Your task to perform on an android device: open app "Instagram" Image 0: 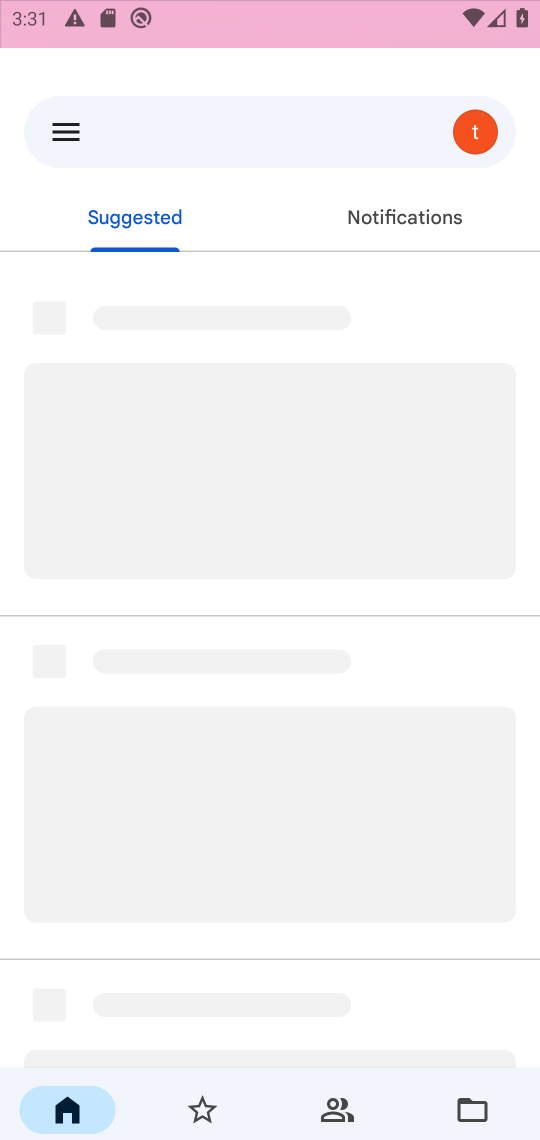
Step 0: drag from (229, 279) to (130, 434)
Your task to perform on an android device: open app "Instagram" Image 1: 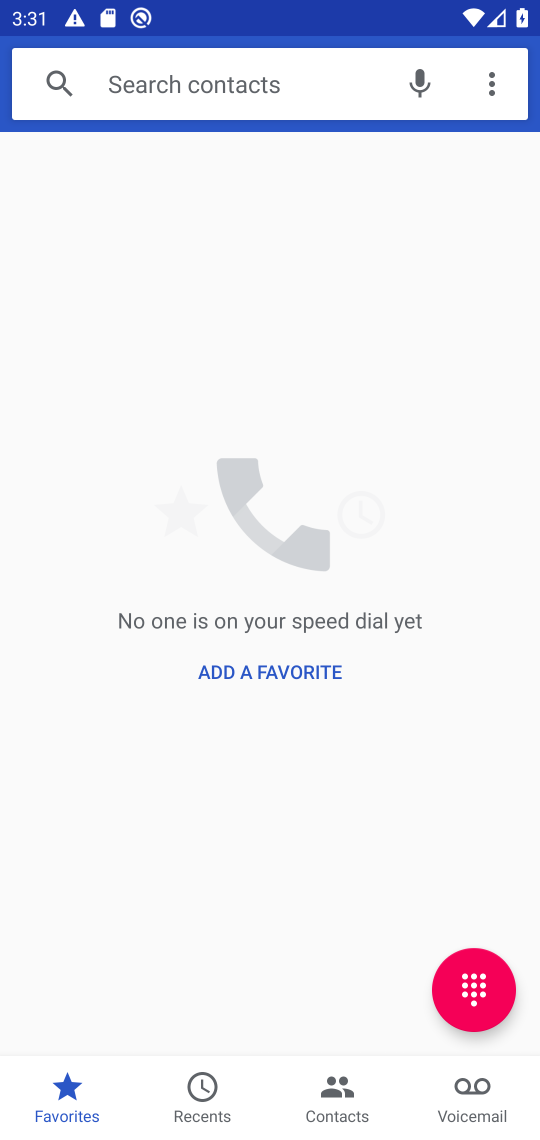
Step 1: drag from (120, 996) to (137, 609)
Your task to perform on an android device: open app "Instagram" Image 2: 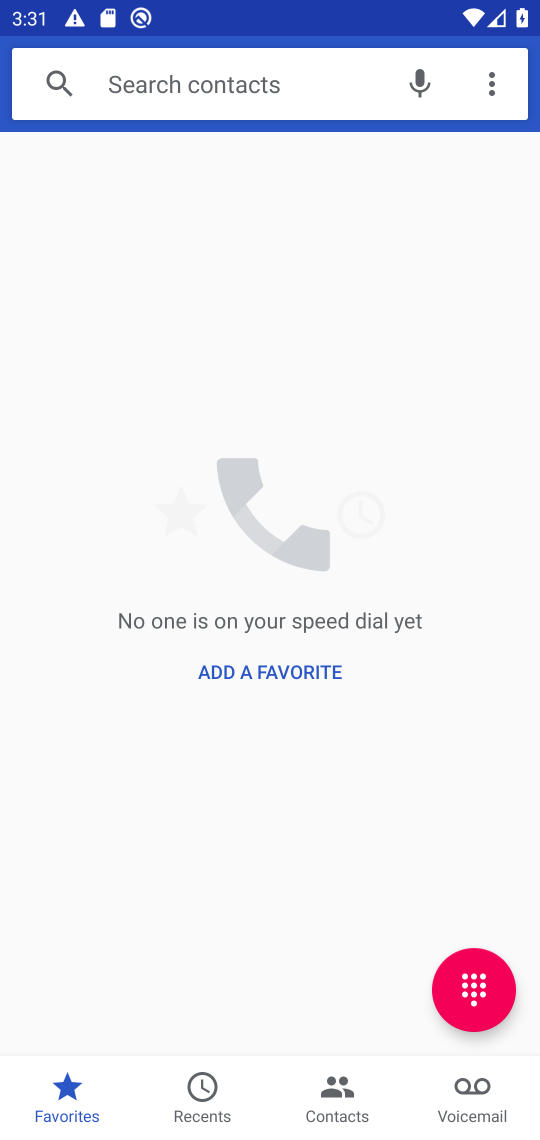
Step 2: press back button
Your task to perform on an android device: open app "Instagram" Image 3: 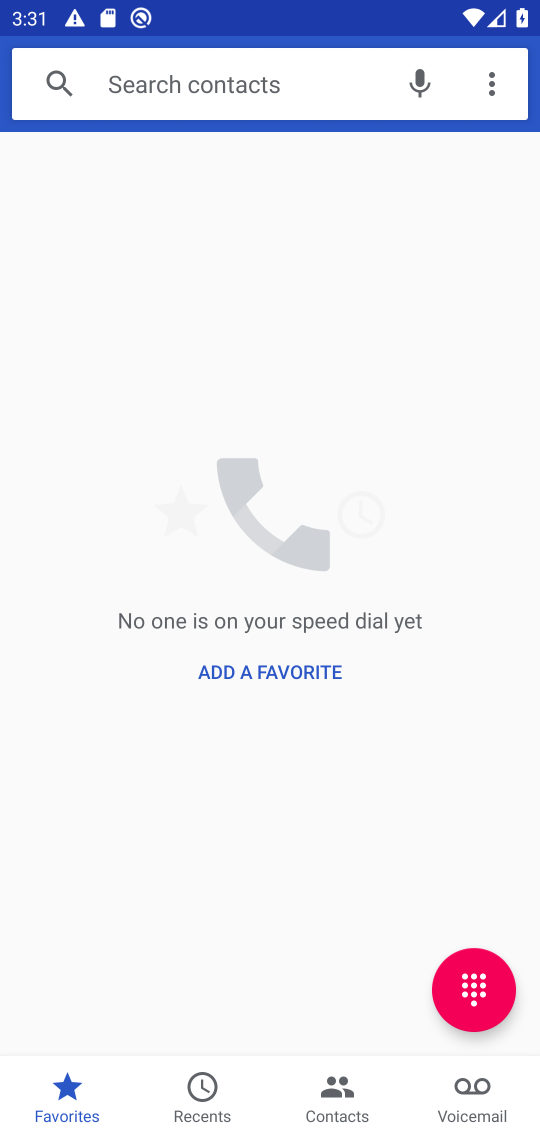
Step 3: press back button
Your task to perform on an android device: open app "Instagram" Image 4: 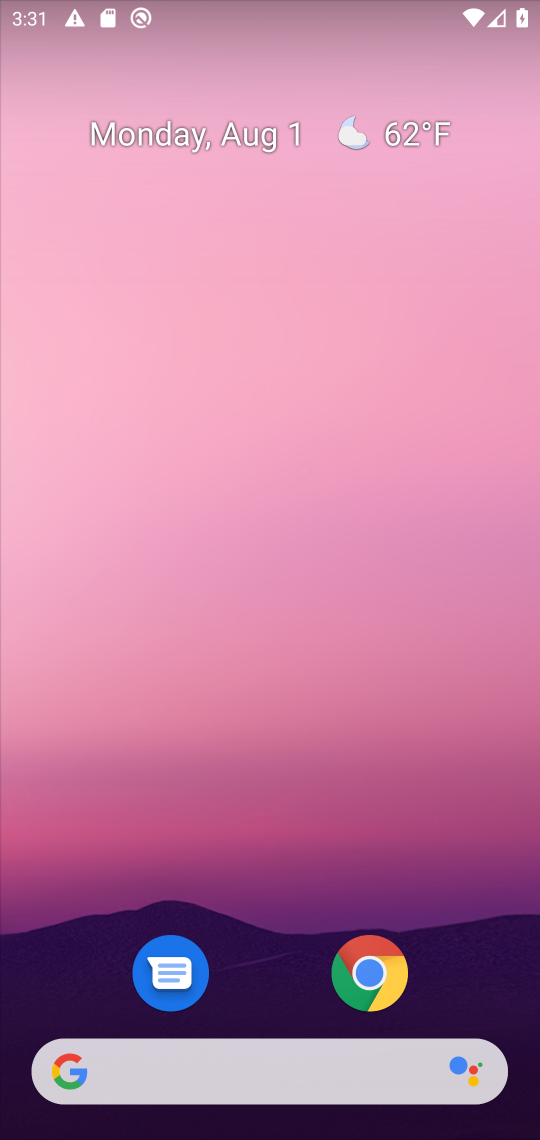
Step 4: press back button
Your task to perform on an android device: open app "Instagram" Image 5: 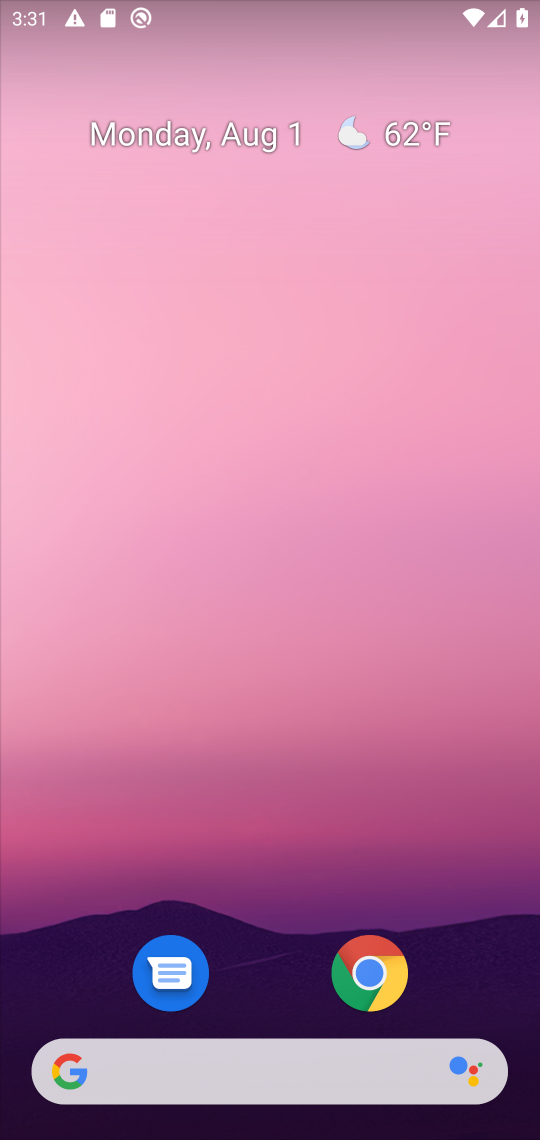
Step 5: drag from (167, 445) to (146, 305)
Your task to perform on an android device: open app "Instagram" Image 6: 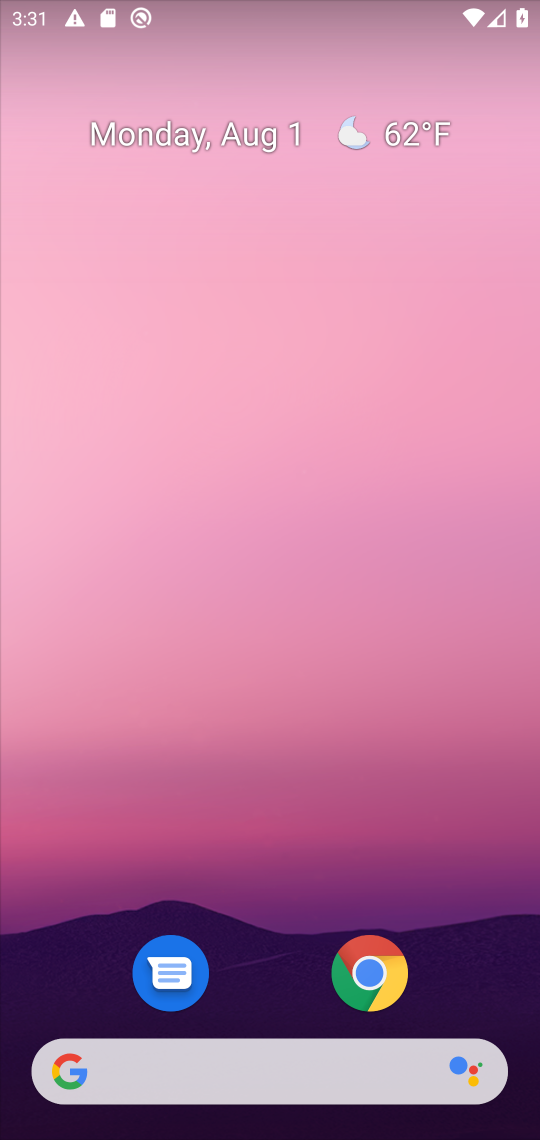
Step 6: drag from (223, 790) to (212, 172)
Your task to perform on an android device: open app "Instagram" Image 7: 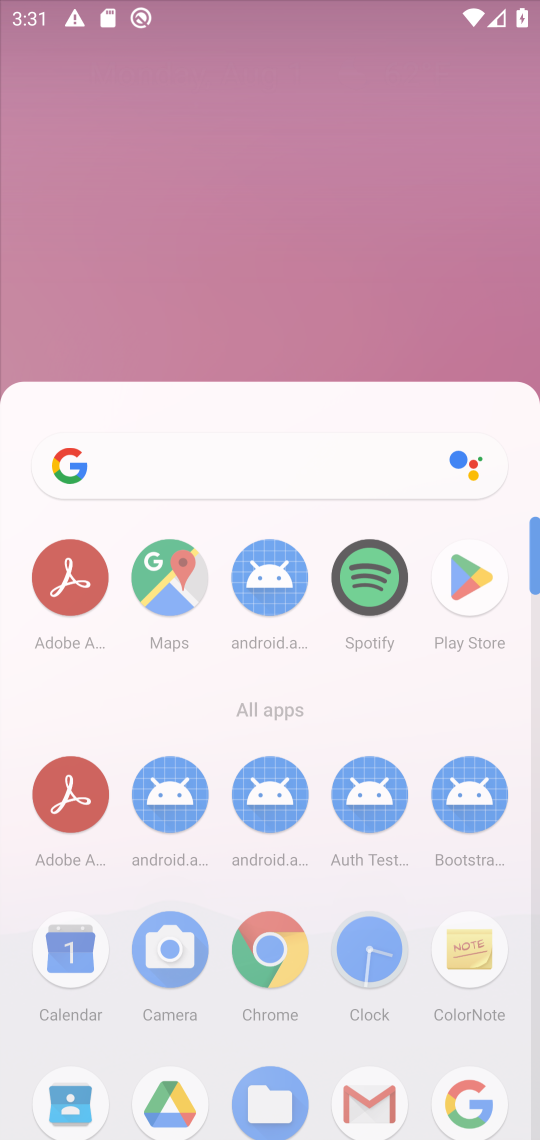
Step 7: drag from (180, 269) to (225, 153)
Your task to perform on an android device: open app "Instagram" Image 8: 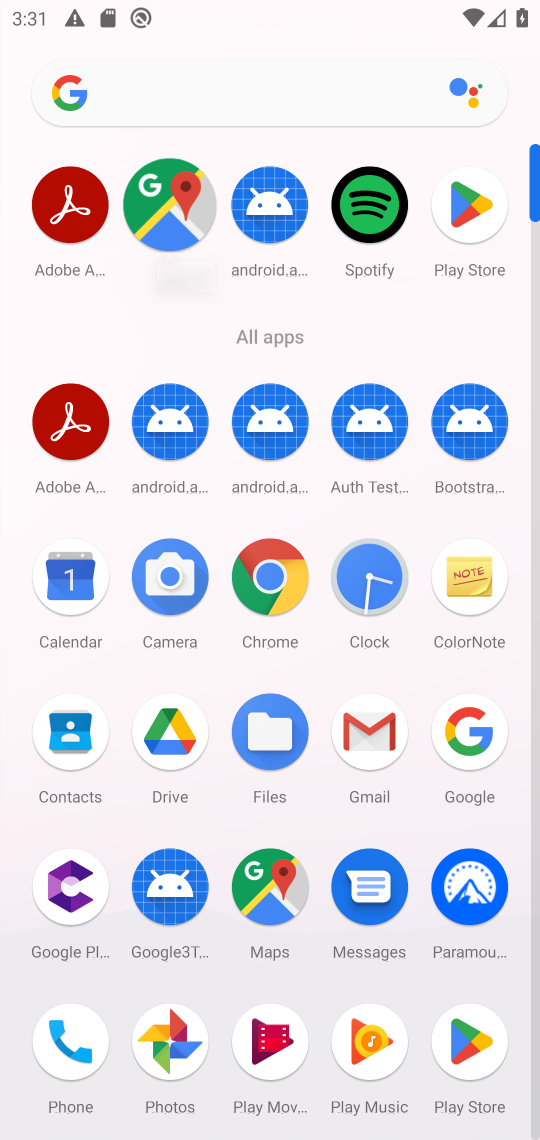
Step 8: drag from (219, 538) to (242, 151)
Your task to perform on an android device: open app "Instagram" Image 9: 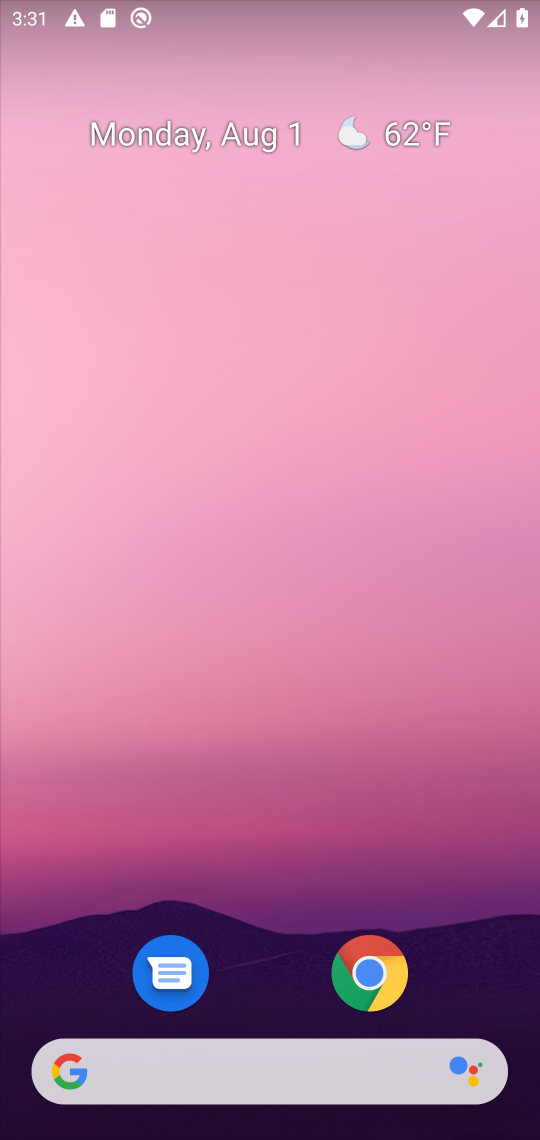
Step 9: drag from (242, 714) to (207, 323)
Your task to perform on an android device: open app "Instagram" Image 10: 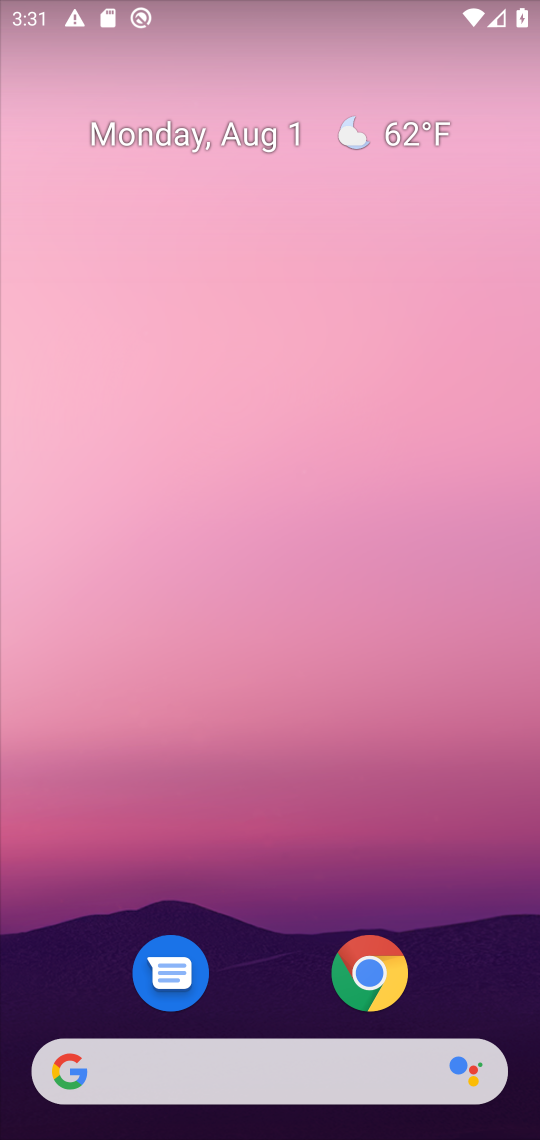
Step 10: drag from (434, 923) to (302, 235)
Your task to perform on an android device: open app "Instagram" Image 11: 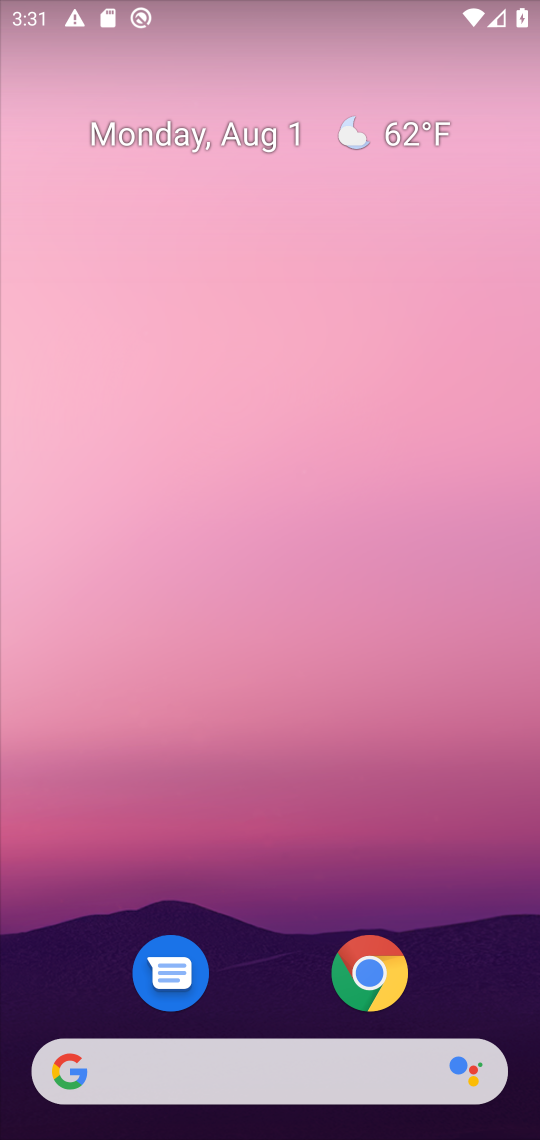
Step 11: drag from (279, 700) to (292, 189)
Your task to perform on an android device: open app "Instagram" Image 12: 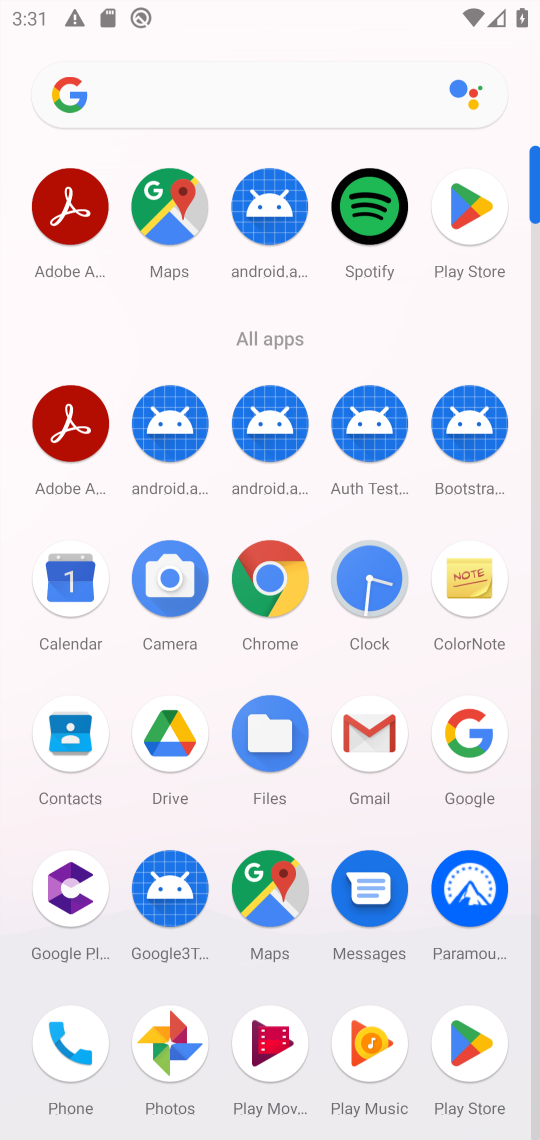
Step 12: click (316, 439)
Your task to perform on an android device: open app "Instagram" Image 13: 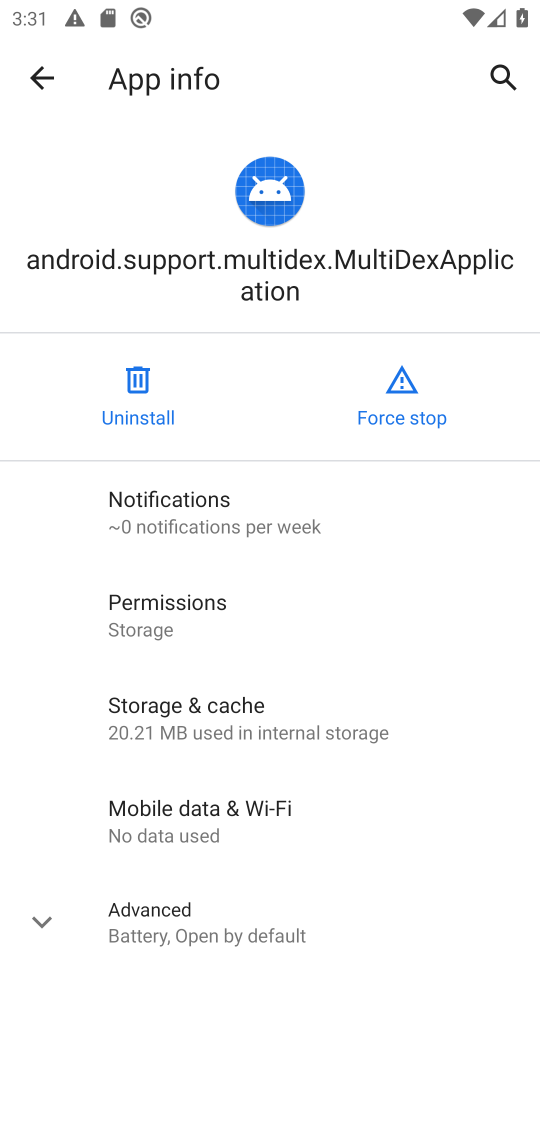
Step 13: click (39, 72)
Your task to perform on an android device: open app "Instagram" Image 14: 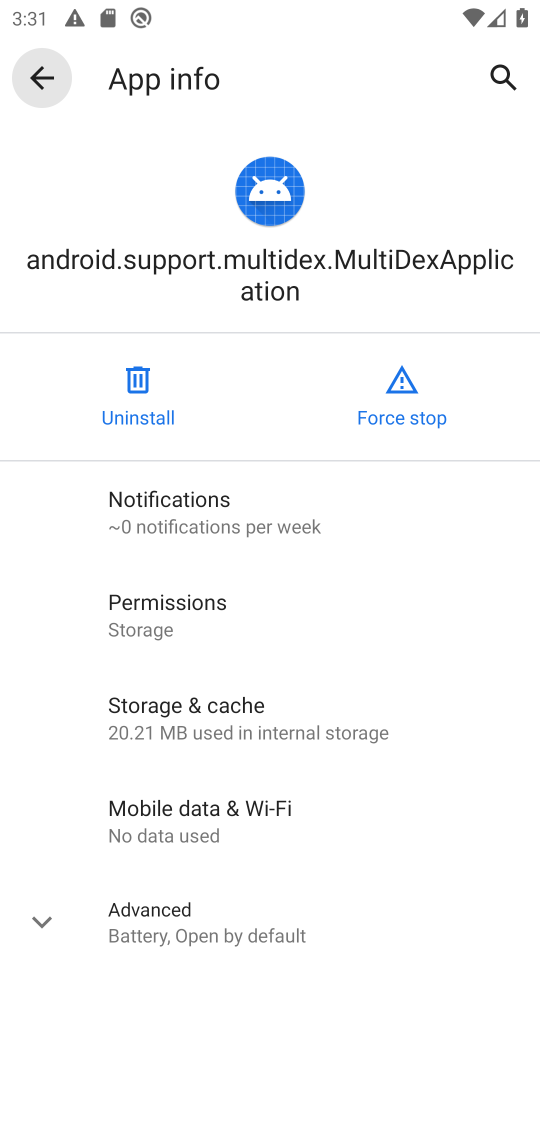
Step 14: click (39, 72)
Your task to perform on an android device: open app "Instagram" Image 15: 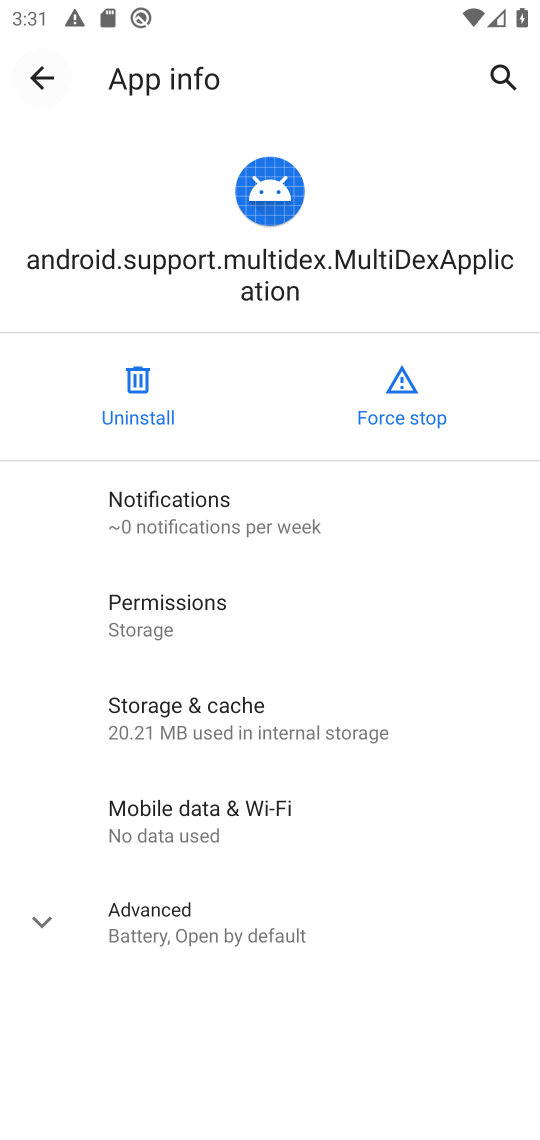
Step 15: click (43, 74)
Your task to perform on an android device: open app "Instagram" Image 16: 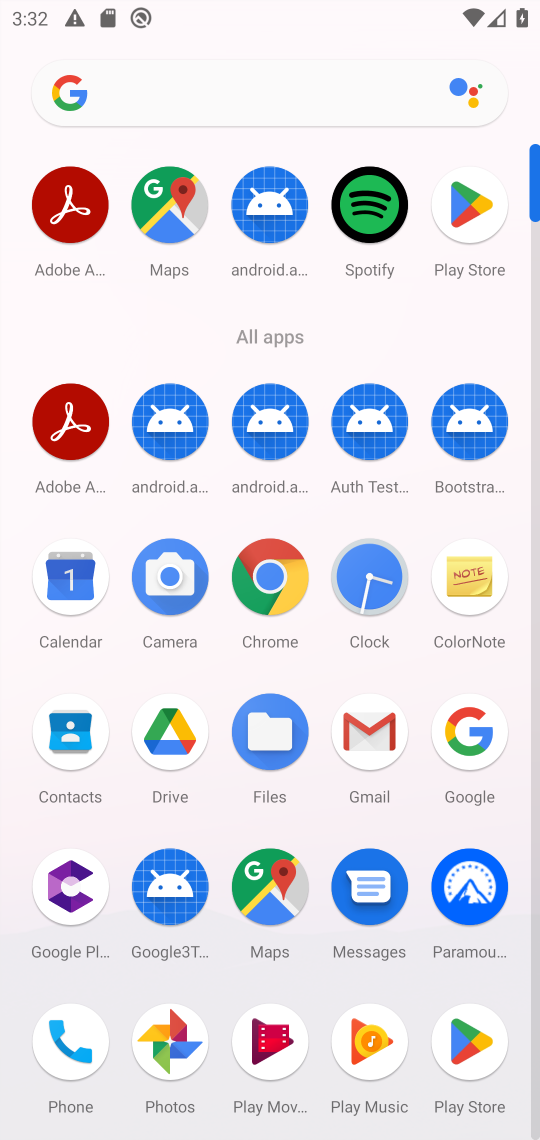
Step 16: drag from (341, 882) to (210, 225)
Your task to perform on an android device: open app "Instagram" Image 17: 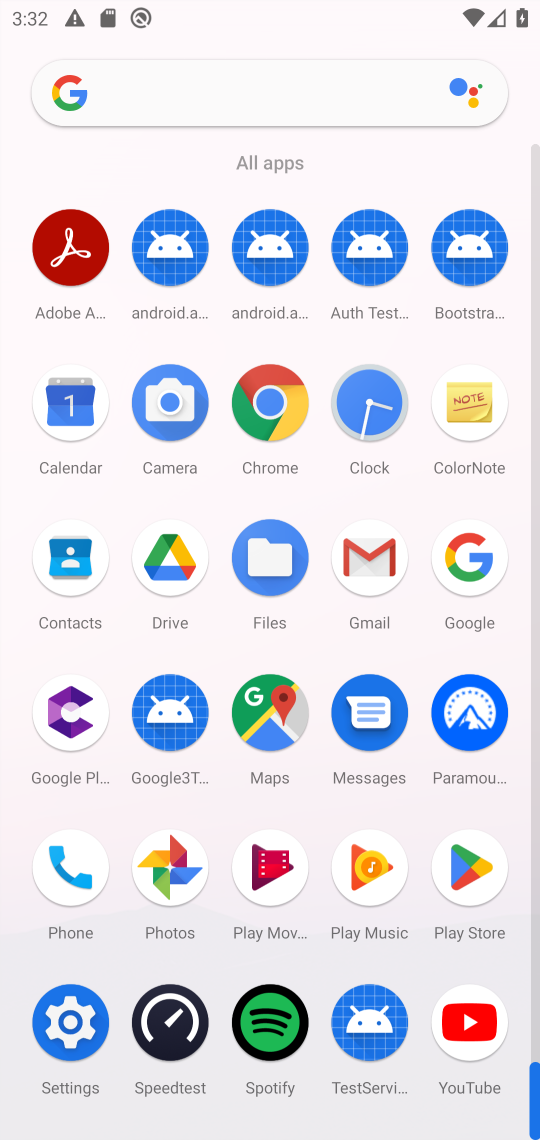
Step 17: drag from (268, 590) to (193, 251)
Your task to perform on an android device: open app "Instagram" Image 18: 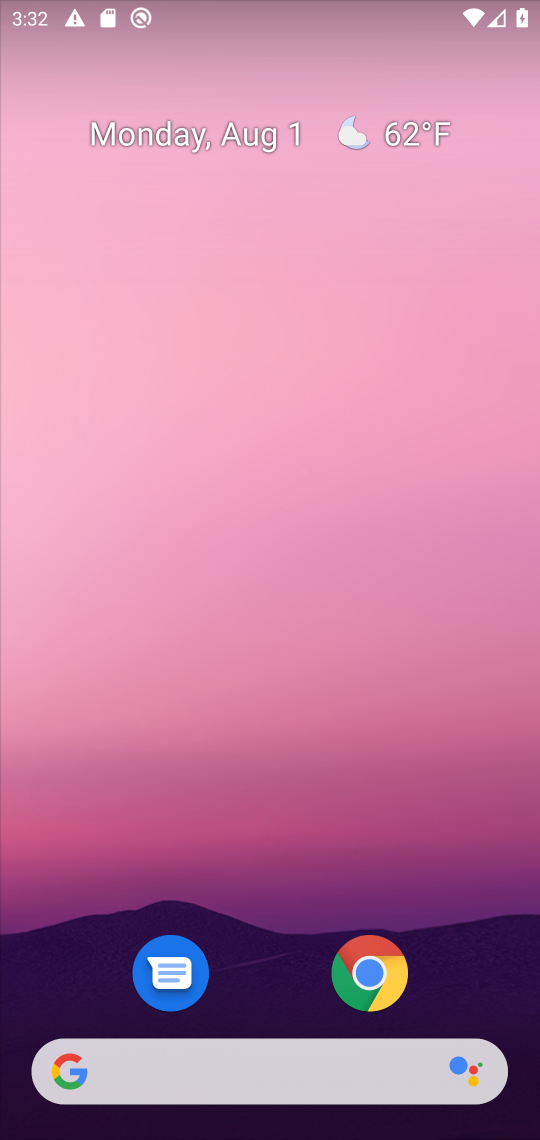
Step 18: drag from (266, 931) to (312, 352)
Your task to perform on an android device: open app "Instagram" Image 19: 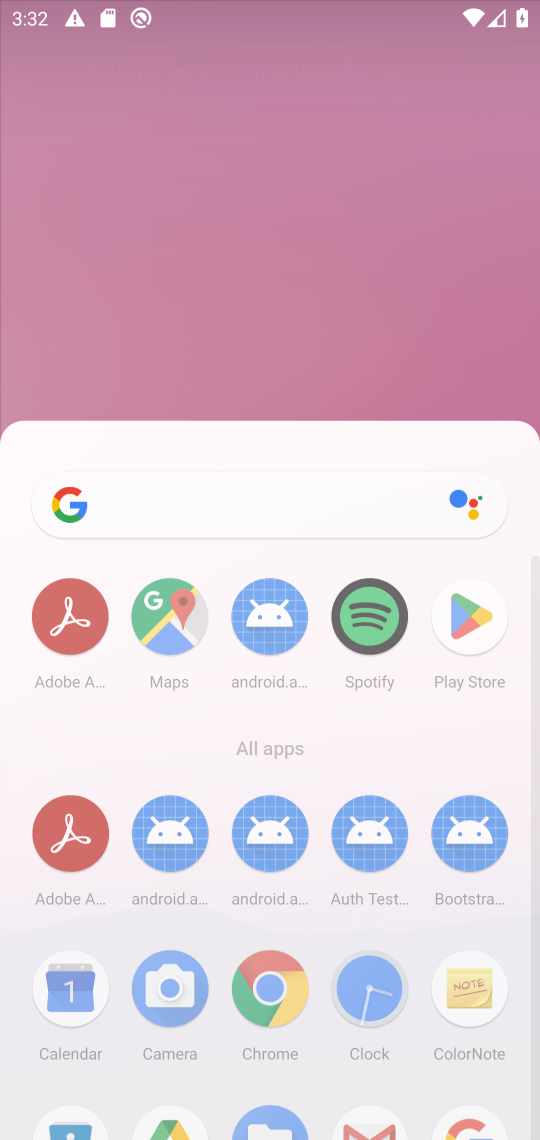
Step 19: drag from (326, 760) to (267, 311)
Your task to perform on an android device: open app "Instagram" Image 20: 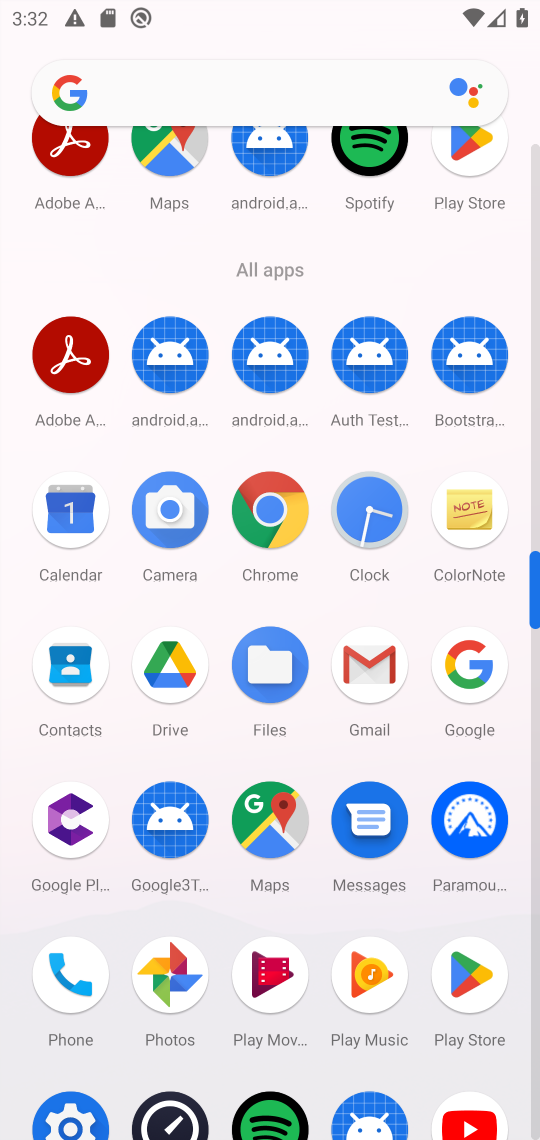
Step 20: click (462, 155)
Your task to perform on an android device: open app "Instagram" Image 21: 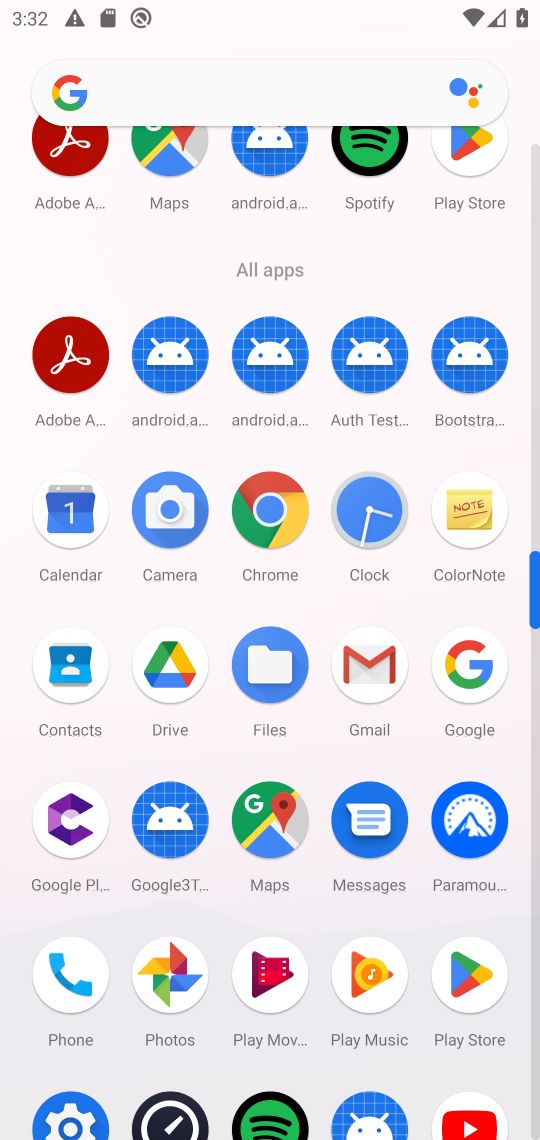
Step 21: click (462, 155)
Your task to perform on an android device: open app "Instagram" Image 22: 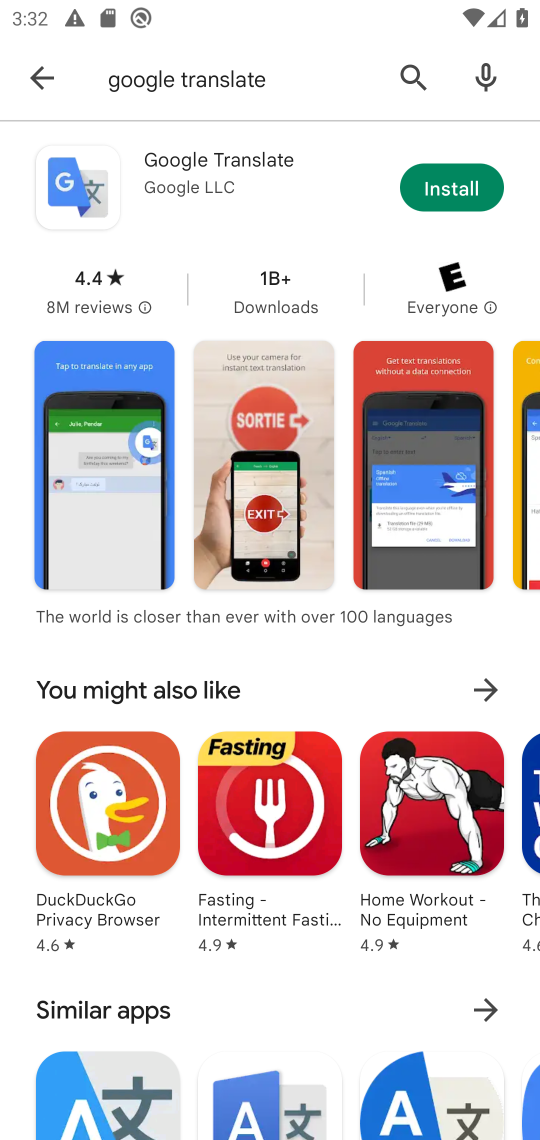
Step 22: click (450, 177)
Your task to perform on an android device: open app "Instagram" Image 23: 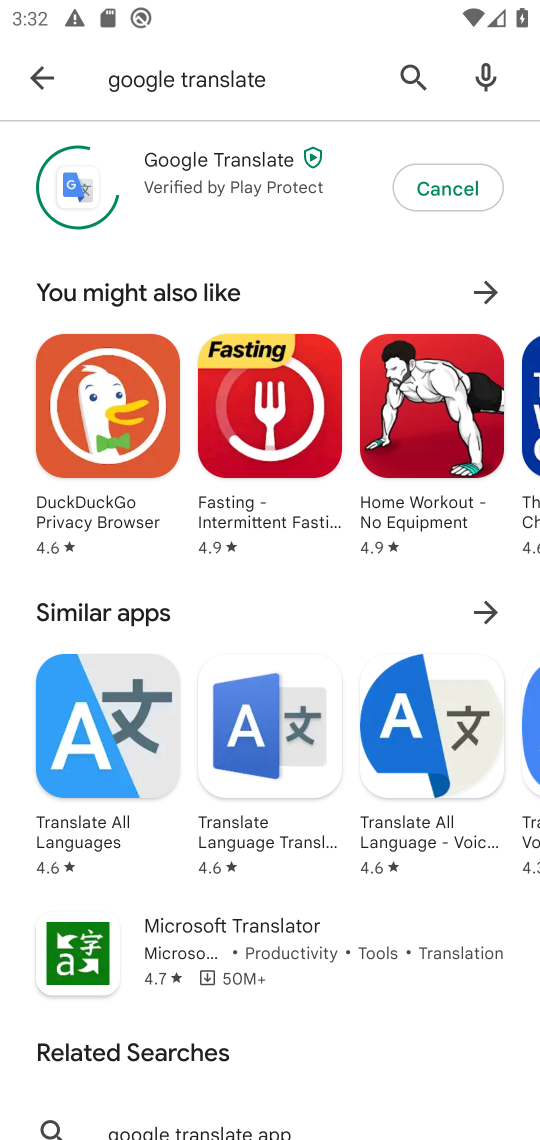
Step 23: click (17, 56)
Your task to perform on an android device: open app "Instagram" Image 24: 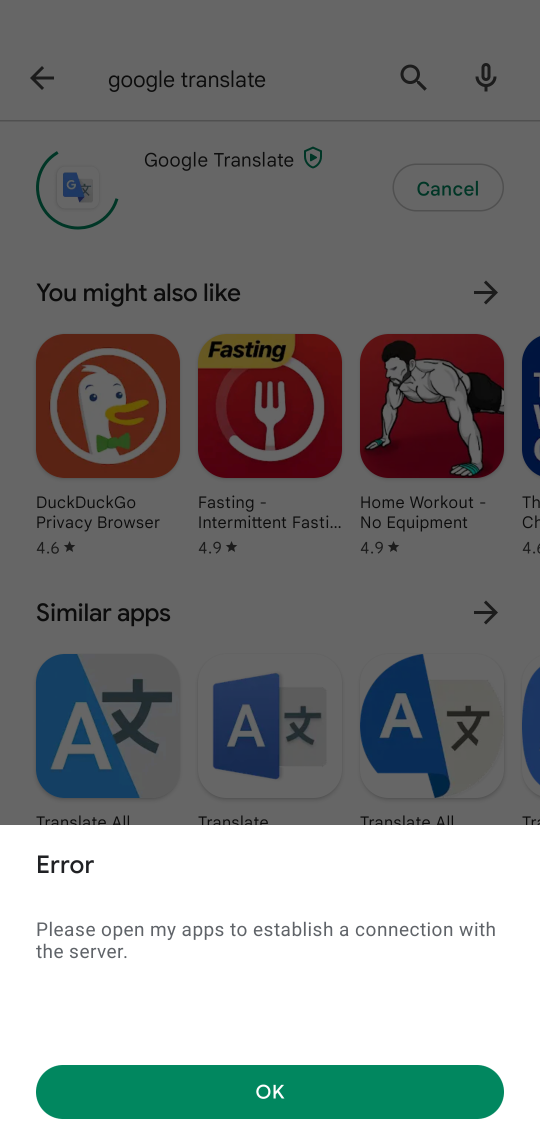
Step 24: click (421, 174)
Your task to perform on an android device: open app "Instagram" Image 25: 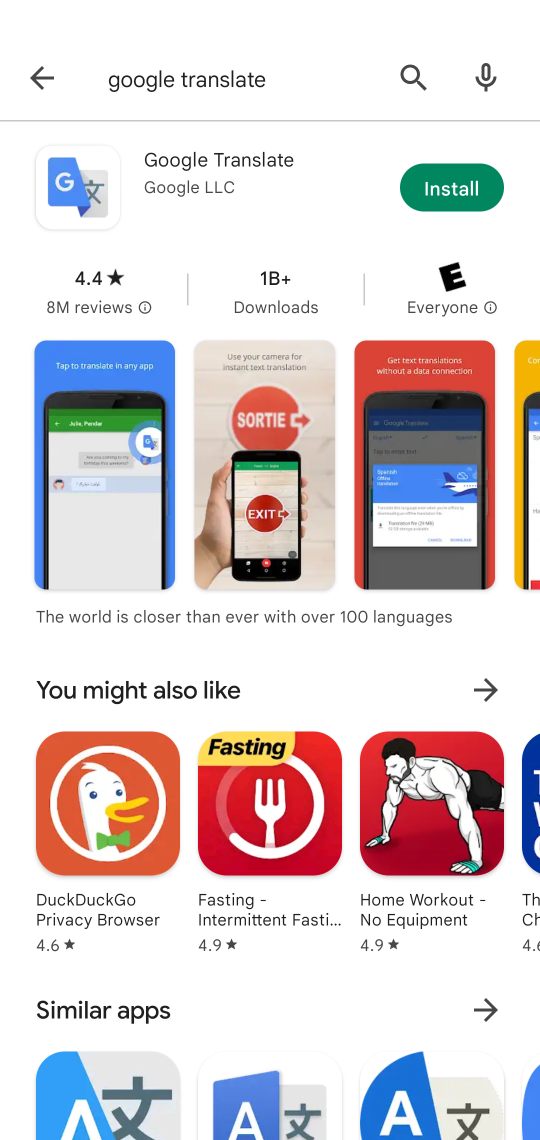
Step 25: click (340, 1101)
Your task to perform on an android device: open app "Instagram" Image 26: 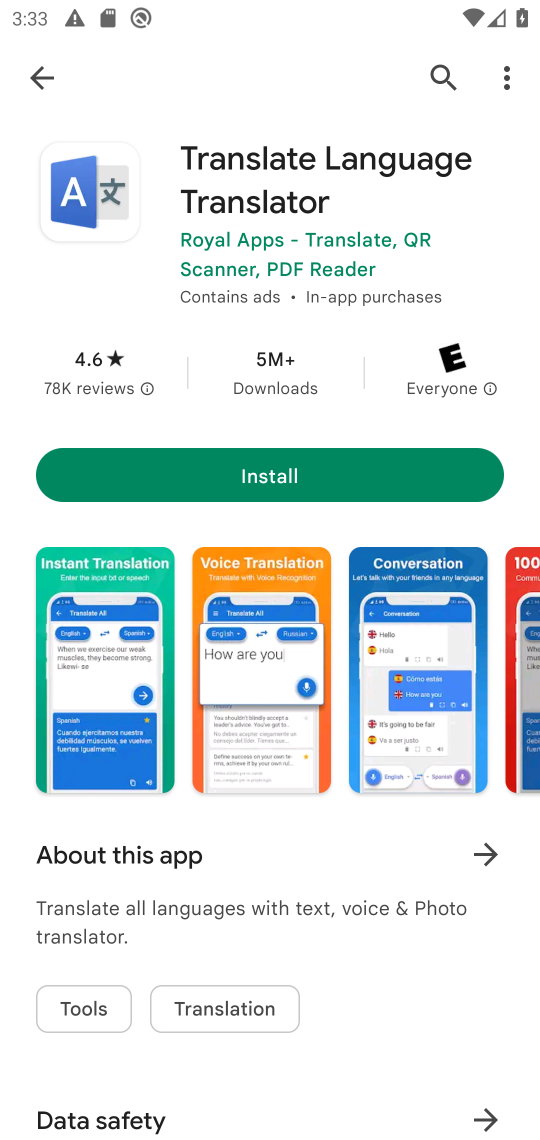
Step 26: click (30, 68)
Your task to perform on an android device: open app "Instagram" Image 27: 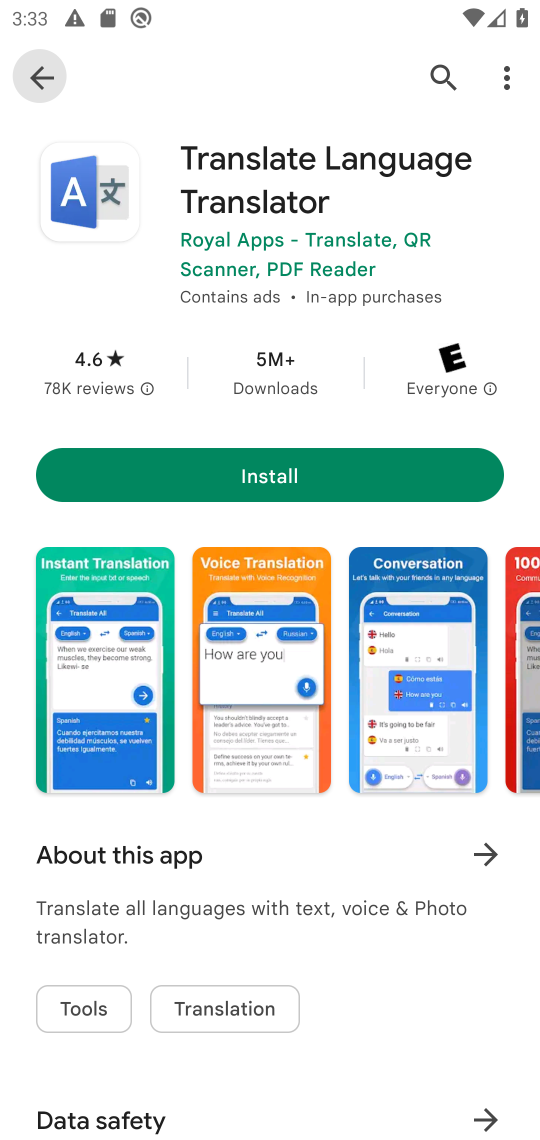
Step 27: click (32, 65)
Your task to perform on an android device: open app "Instagram" Image 28: 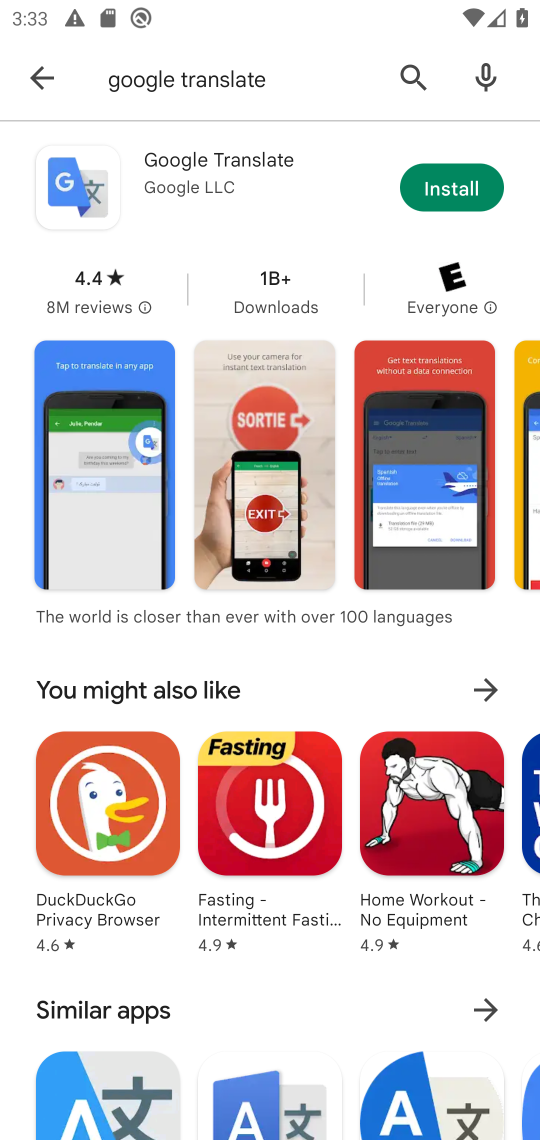
Step 28: click (79, 102)
Your task to perform on an android device: open app "Instagram" Image 29: 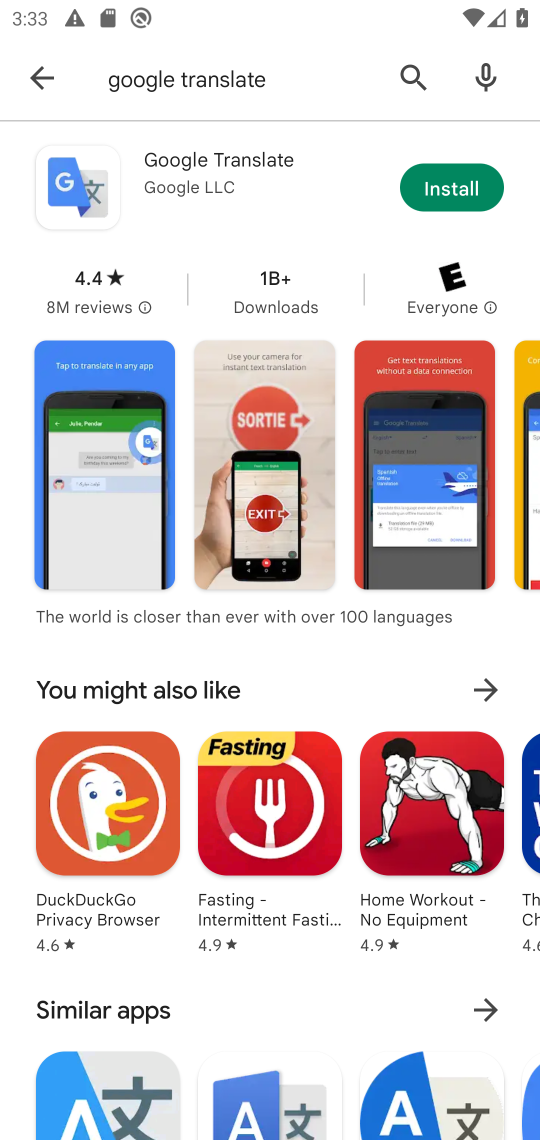
Step 29: click (42, 74)
Your task to perform on an android device: open app "Instagram" Image 30: 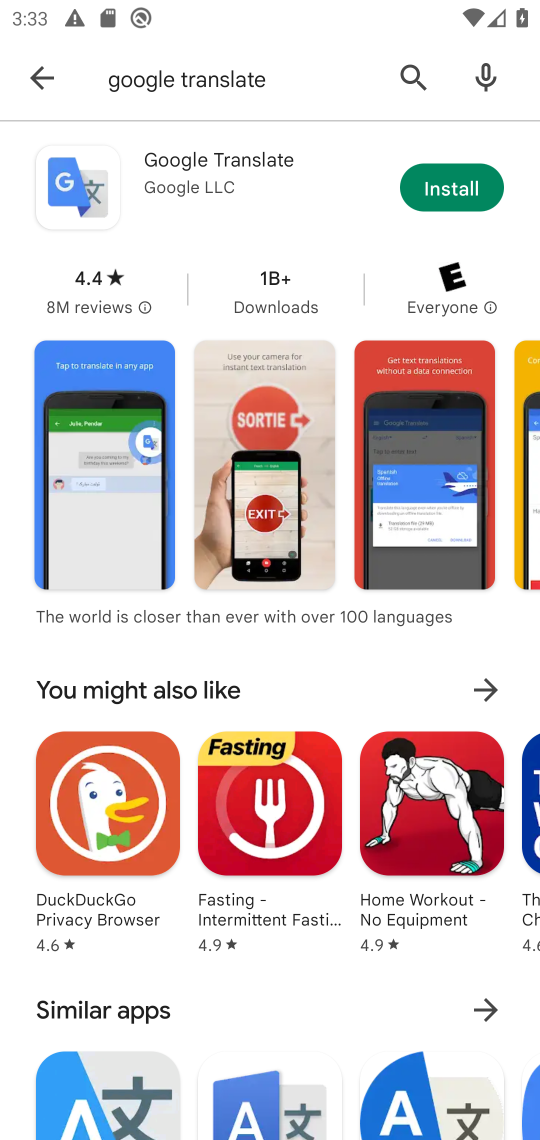
Step 30: click (42, 75)
Your task to perform on an android device: open app "Instagram" Image 31: 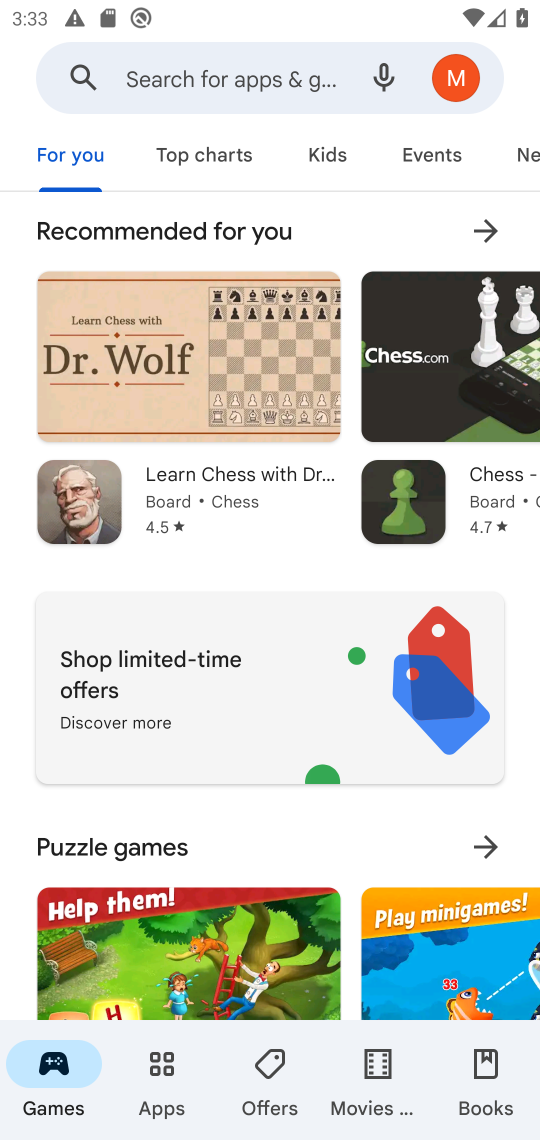
Step 31: click (181, 72)
Your task to perform on an android device: open app "Instagram" Image 32: 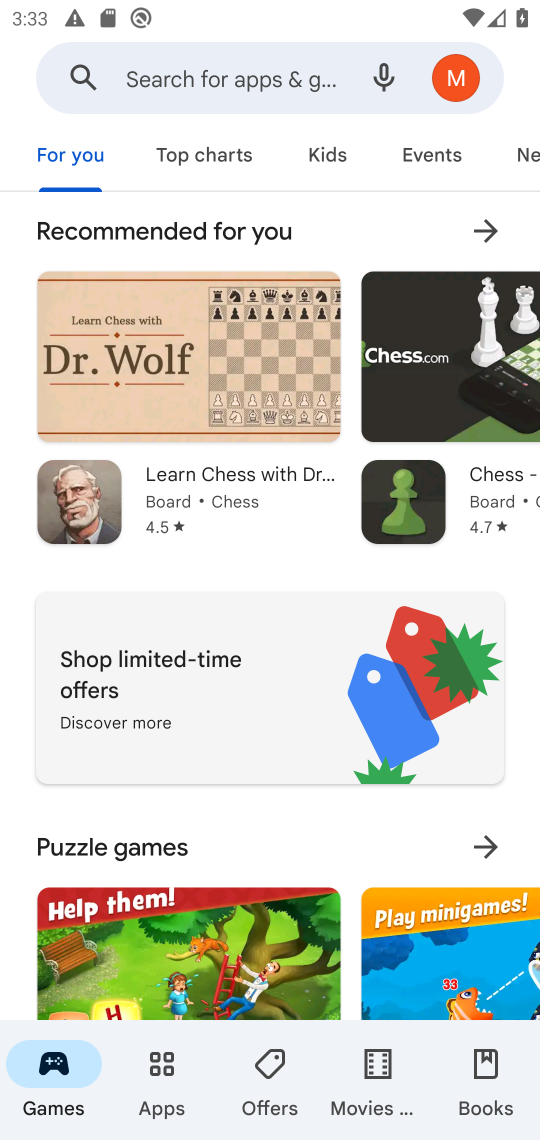
Step 32: click (179, 72)
Your task to perform on an android device: open app "Instagram" Image 33: 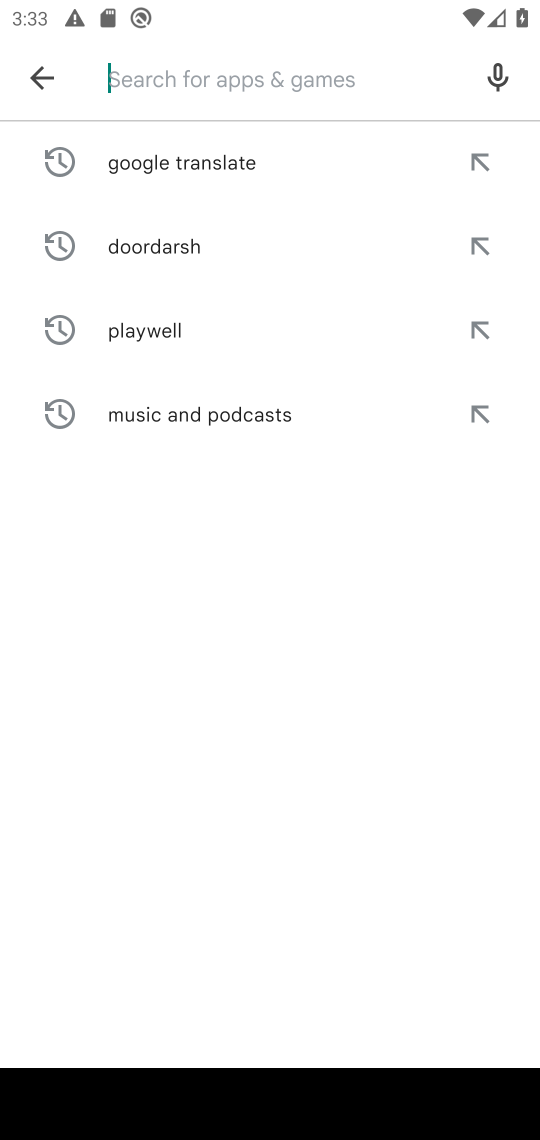
Step 33: type "instagram"
Your task to perform on an android device: open app "Instagram" Image 34: 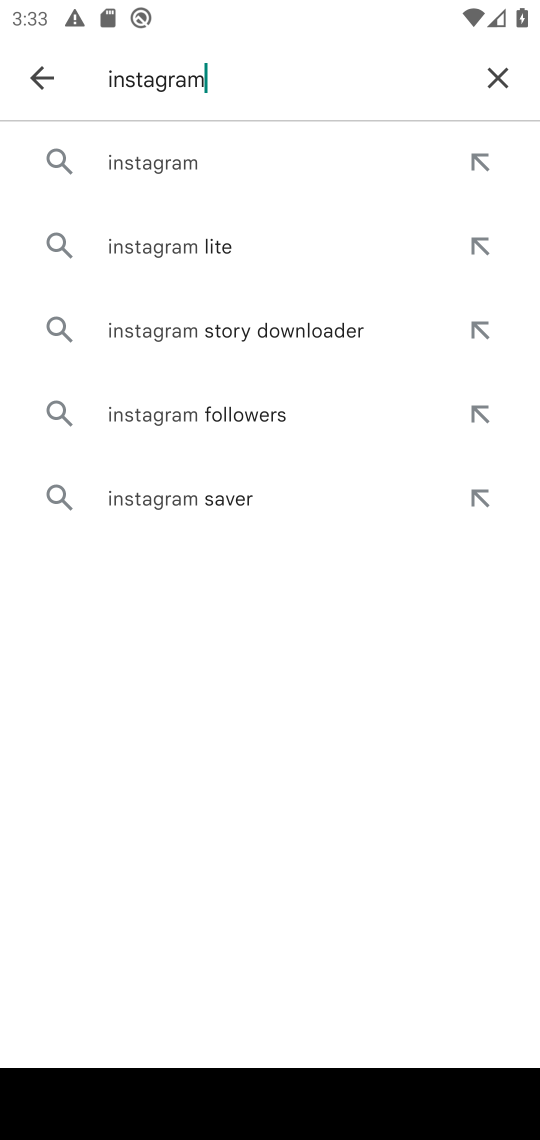
Step 34: click (154, 180)
Your task to perform on an android device: open app "Instagram" Image 35: 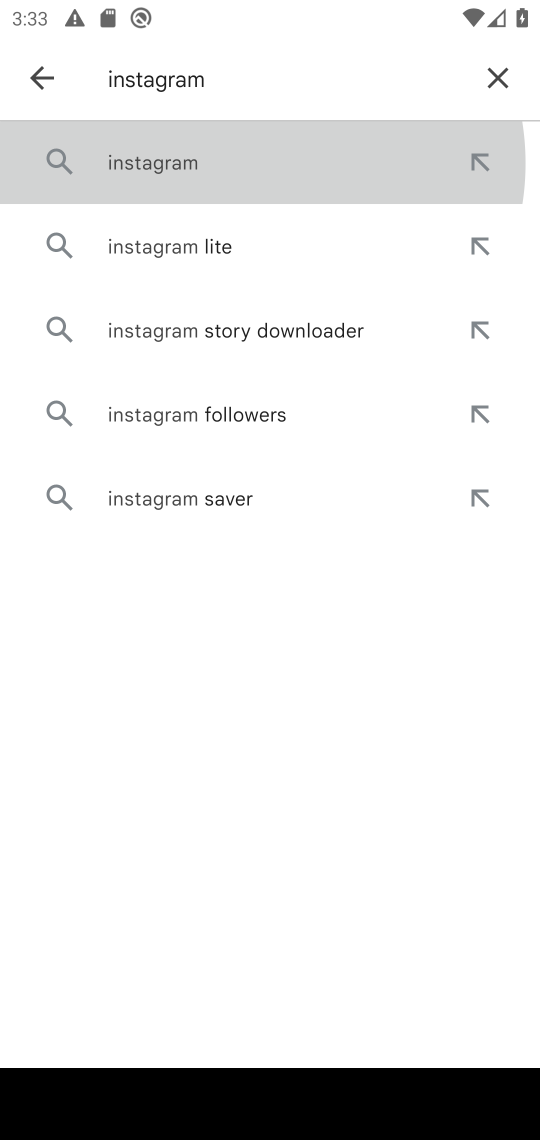
Step 35: click (156, 180)
Your task to perform on an android device: open app "Instagram" Image 36: 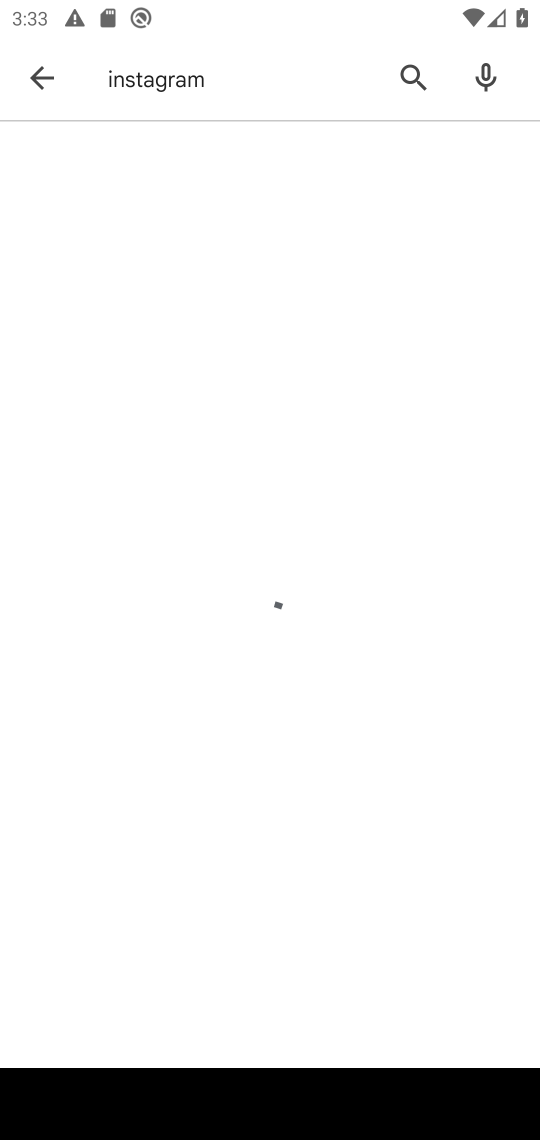
Step 36: click (156, 180)
Your task to perform on an android device: open app "Instagram" Image 37: 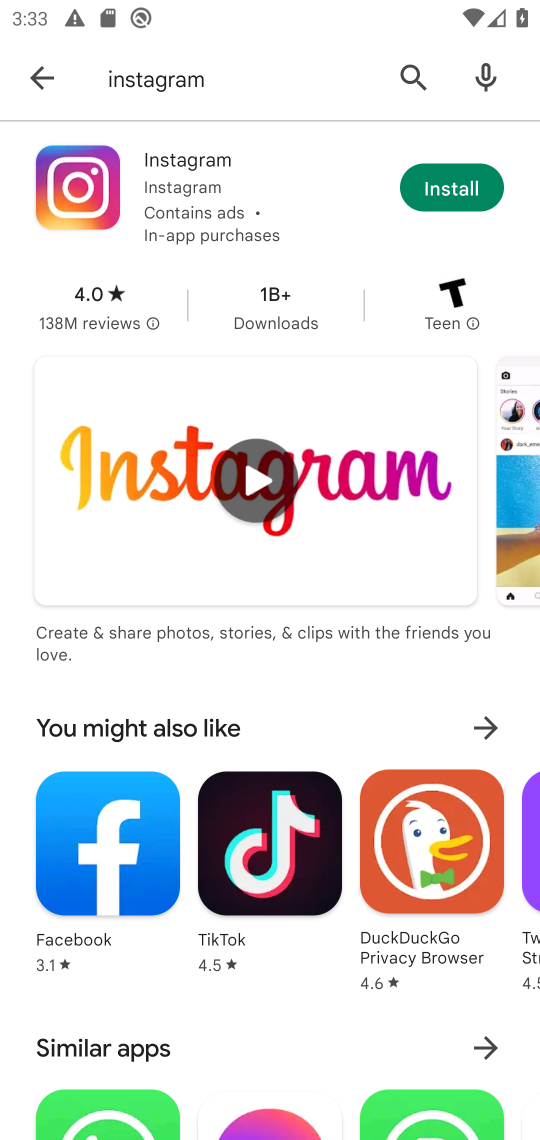
Step 37: click (454, 191)
Your task to perform on an android device: open app "Instagram" Image 38: 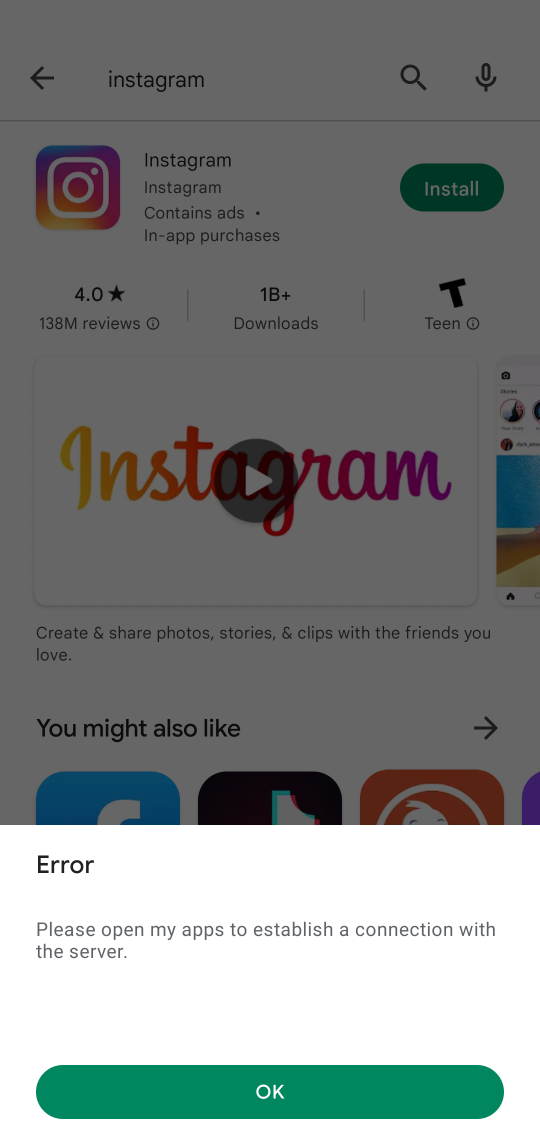
Step 38: click (263, 1088)
Your task to perform on an android device: open app "Instagram" Image 39: 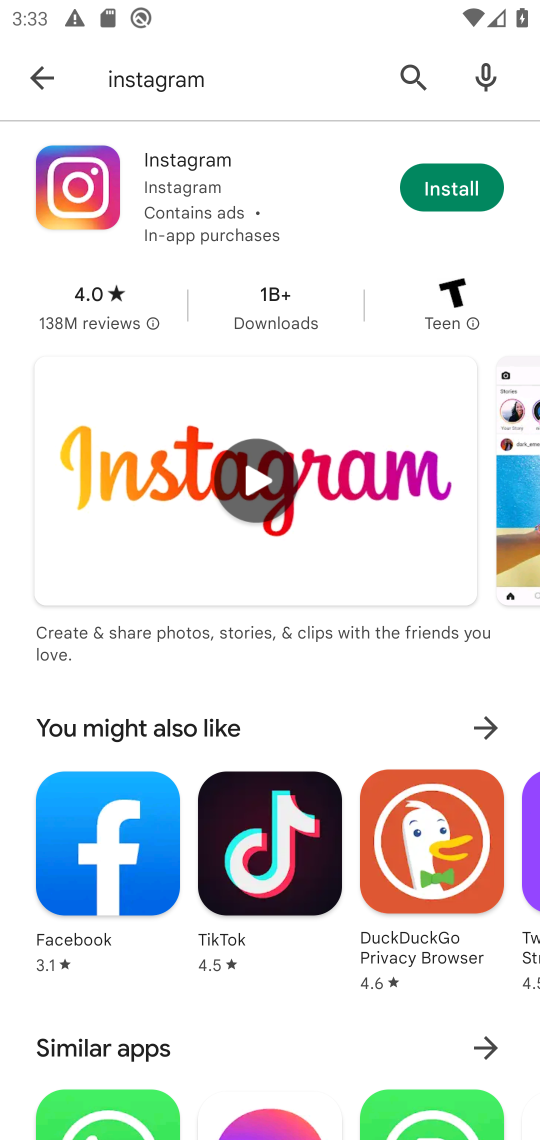
Step 39: click (279, 1068)
Your task to perform on an android device: open app "Instagram" Image 40: 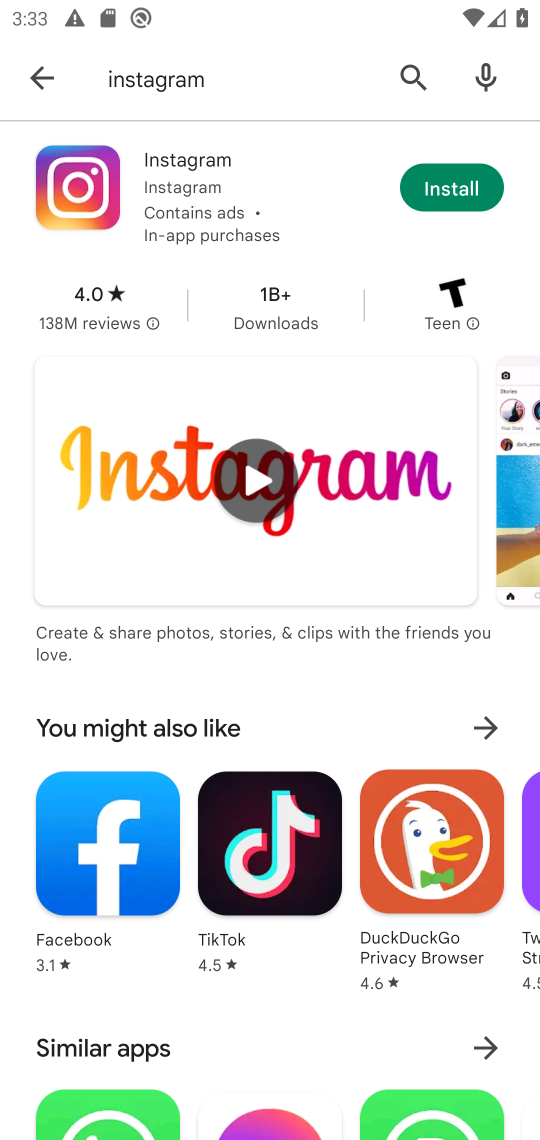
Step 40: click (279, 1068)
Your task to perform on an android device: open app "Instagram" Image 41: 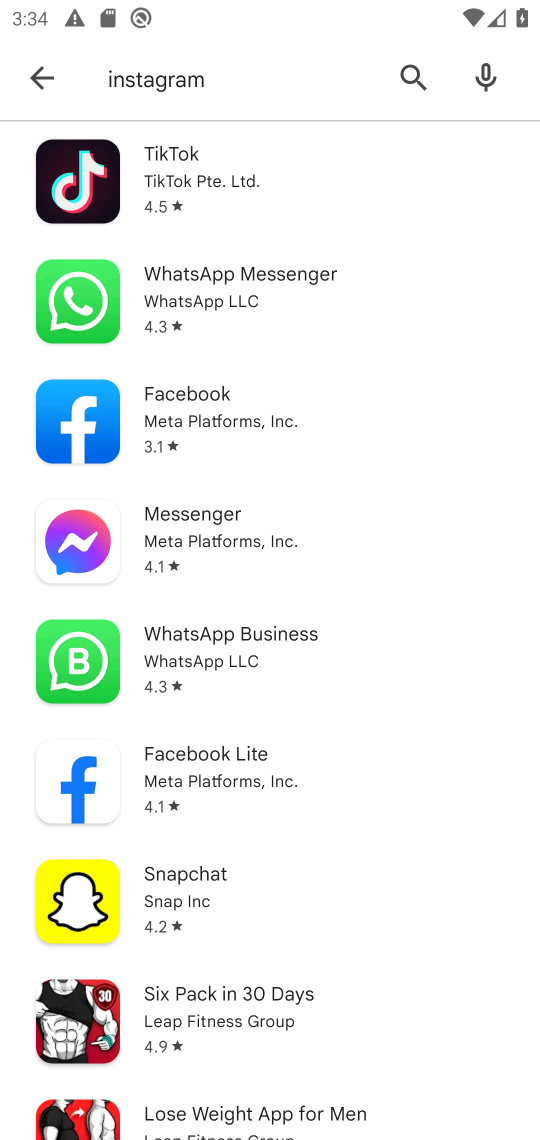
Step 41: drag from (203, 558) to (208, 1111)
Your task to perform on an android device: open app "Instagram" Image 42: 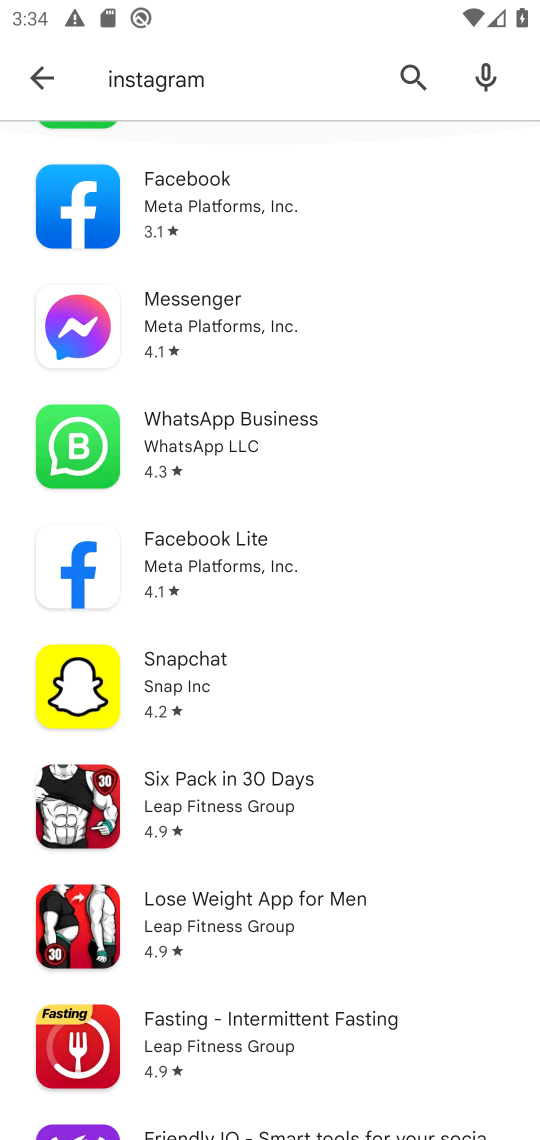
Step 42: drag from (174, 669) to (206, 961)
Your task to perform on an android device: open app "Instagram" Image 43: 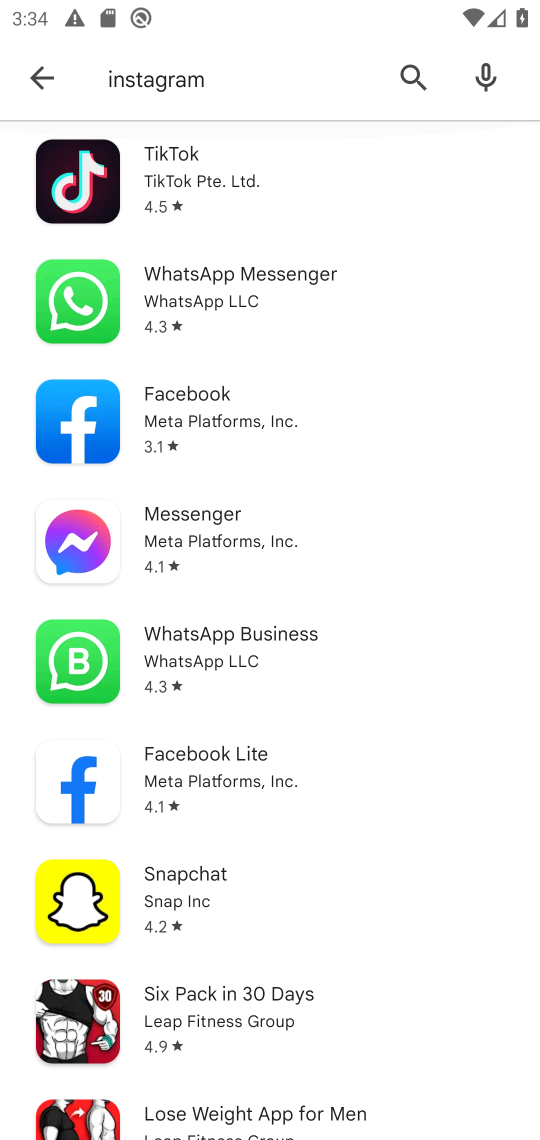
Step 43: drag from (180, 623) to (256, 1006)
Your task to perform on an android device: open app "Instagram" Image 44: 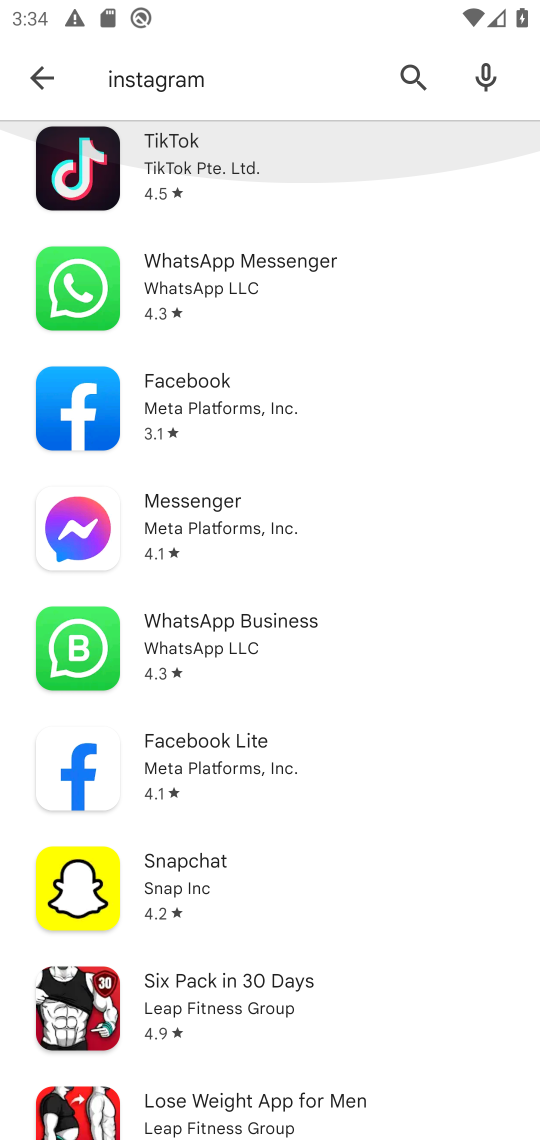
Step 44: drag from (329, 577) to (279, 916)
Your task to perform on an android device: open app "Instagram" Image 45: 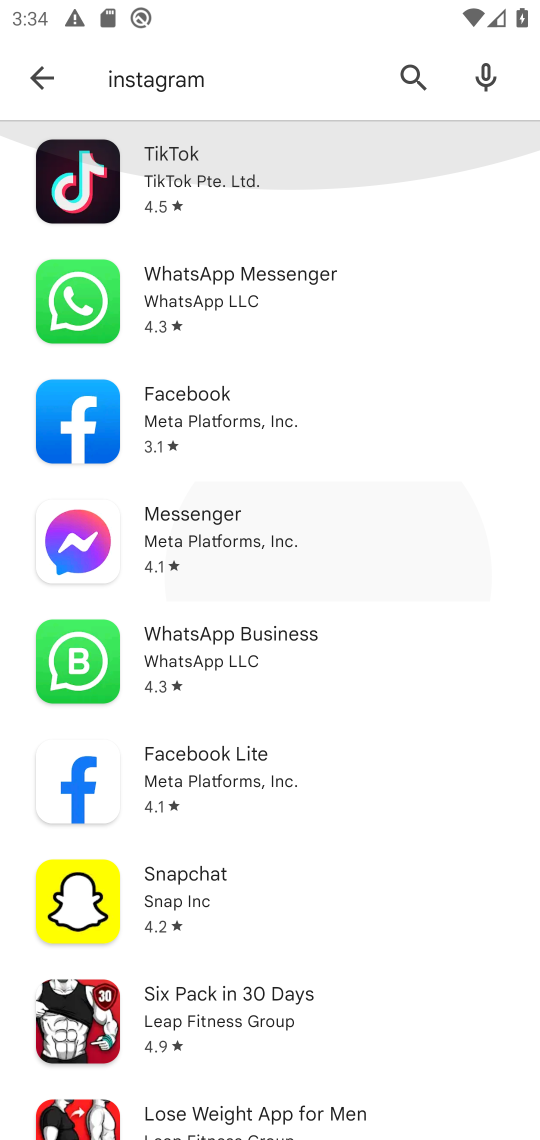
Step 45: drag from (108, 393) to (228, 946)
Your task to perform on an android device: open app "Instagram" Image 46: 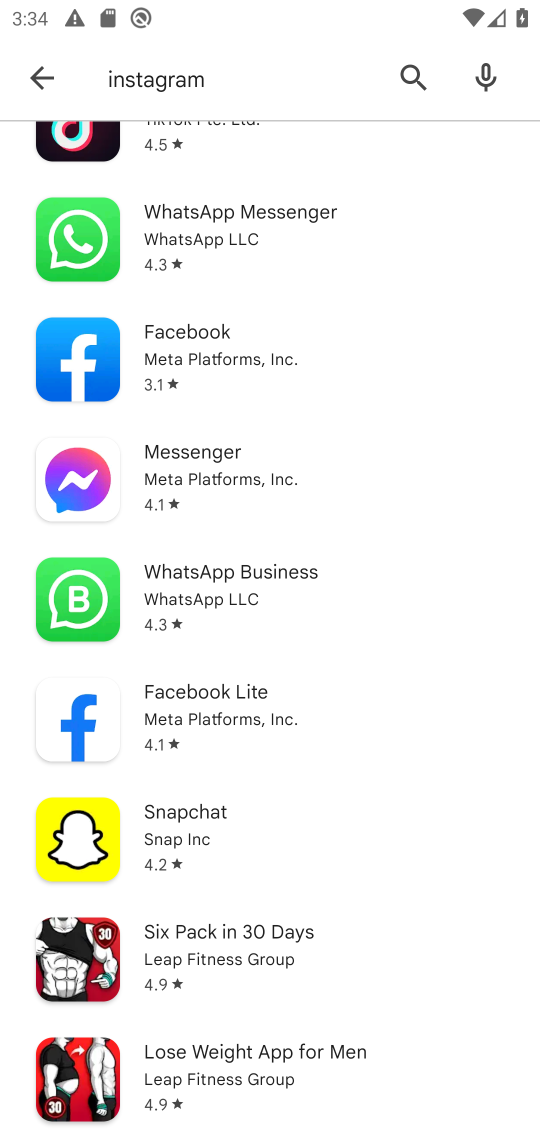
Step 46: drag from (156, 412) to (202, 724)
Your task to perform on an android device: open app "Instagram" Image 47: 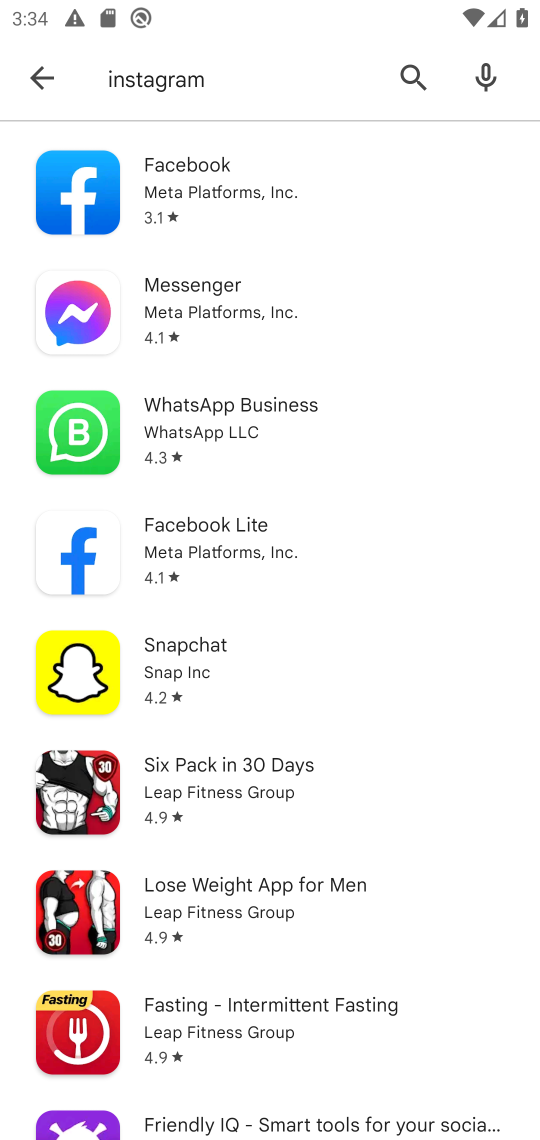
Step 47: drag from (186, 226) to (1, 354)
Your task to perform on an android device: open app "Instagram" Image 48: 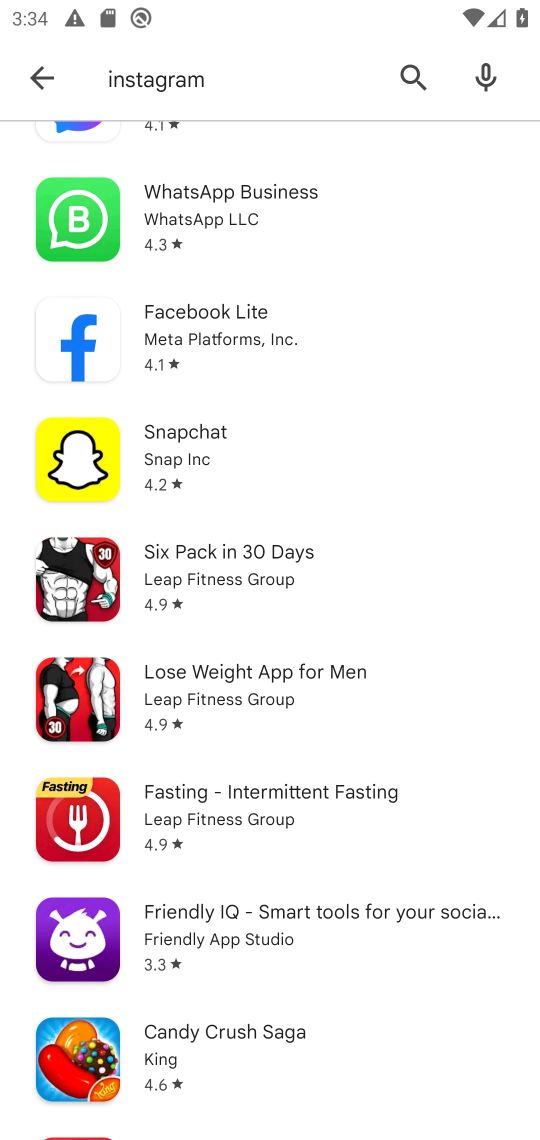
Step 48: drag from (81, 232) to (115, 539)
Your task to perform on an android device: open app "Instagram" Image 49: 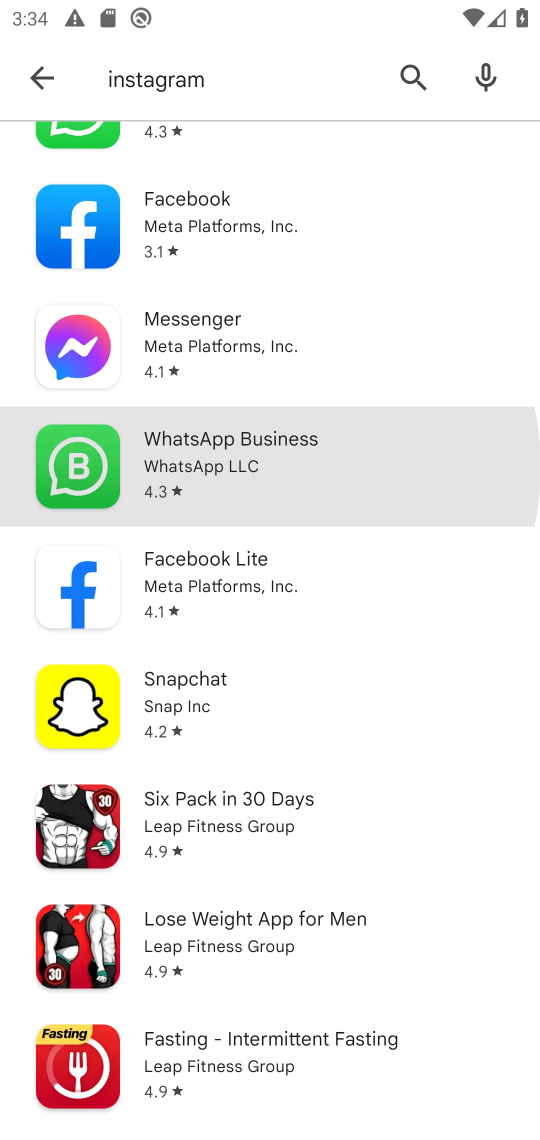
Step 49: drag from (302, 731) to (307, 664)
Your task to perform on an android device: open app "Instagram" Image 50: 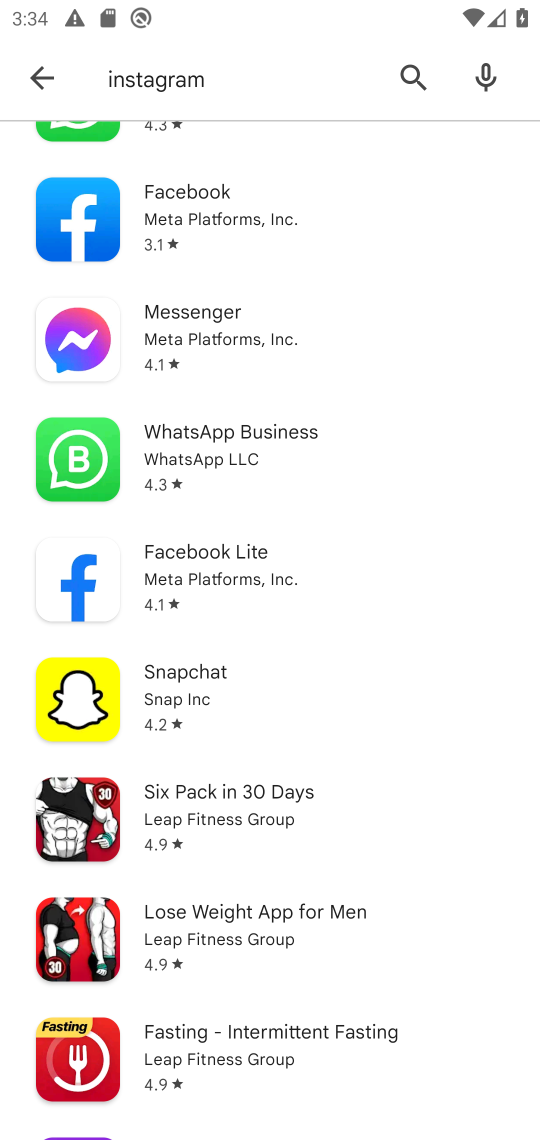
Step 50: drag from (229, 422) to (243, 751)
Your task to perform on an android device: open app "Instagram" Image 51: 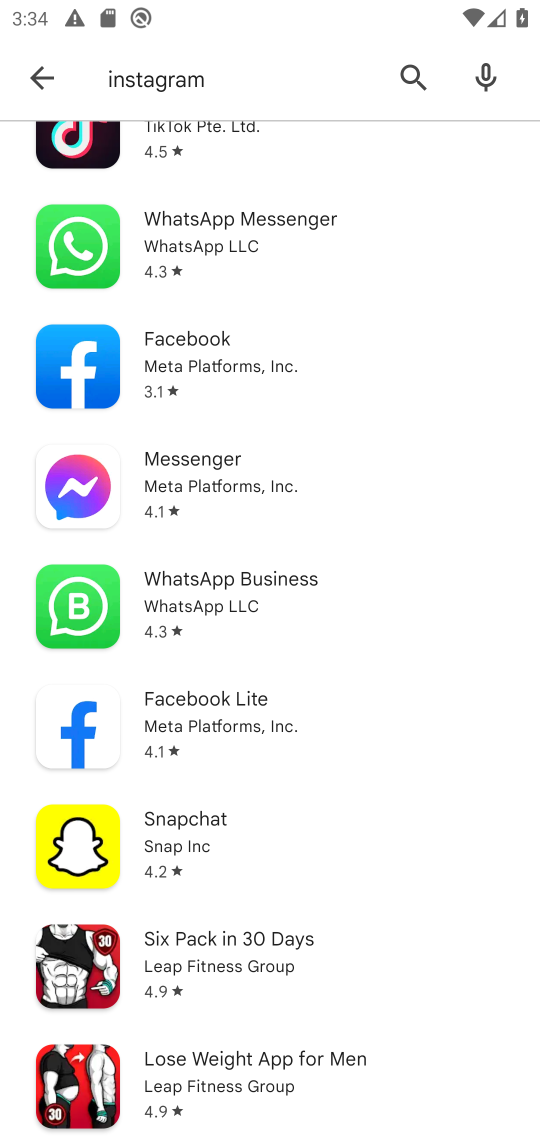
Step 51: drag from (208, 566) to (205, 810)
Your task to perform on an android device: open app "Instagram" Image 52: 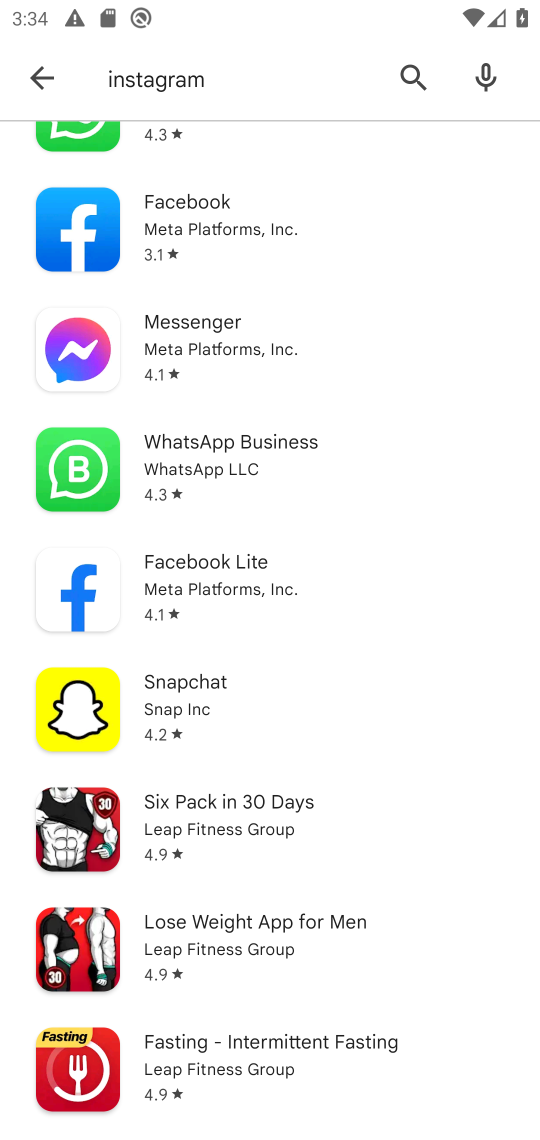
Step 52: drag from (201, 500) to (358, 854)
Your task to perform on an android device: open app "Instagram" Image 53: 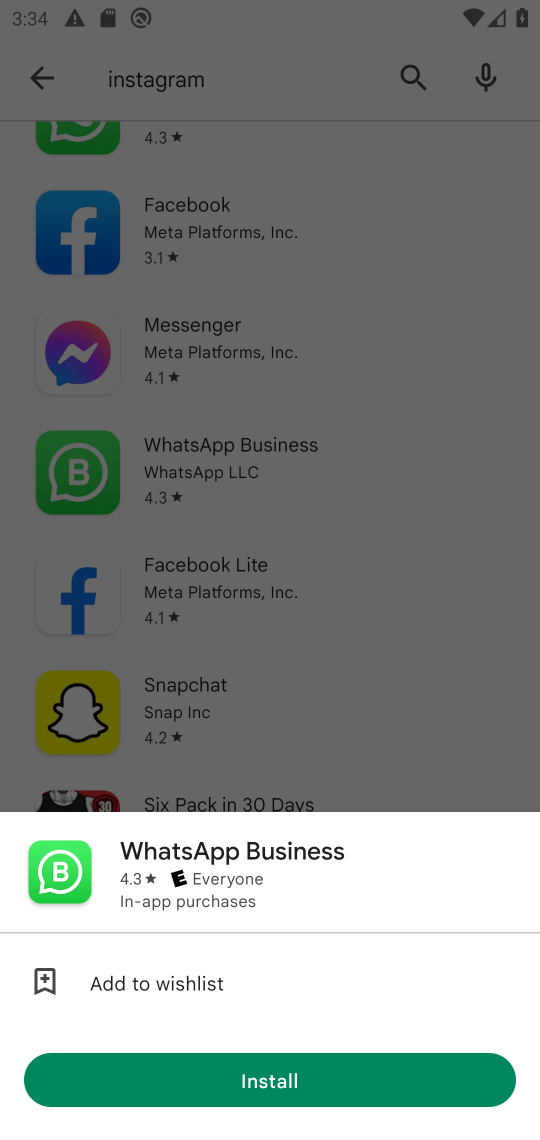
Step 53: click (370, 628)
Your task to perform on an android device: open app "Instagram" Image 54: 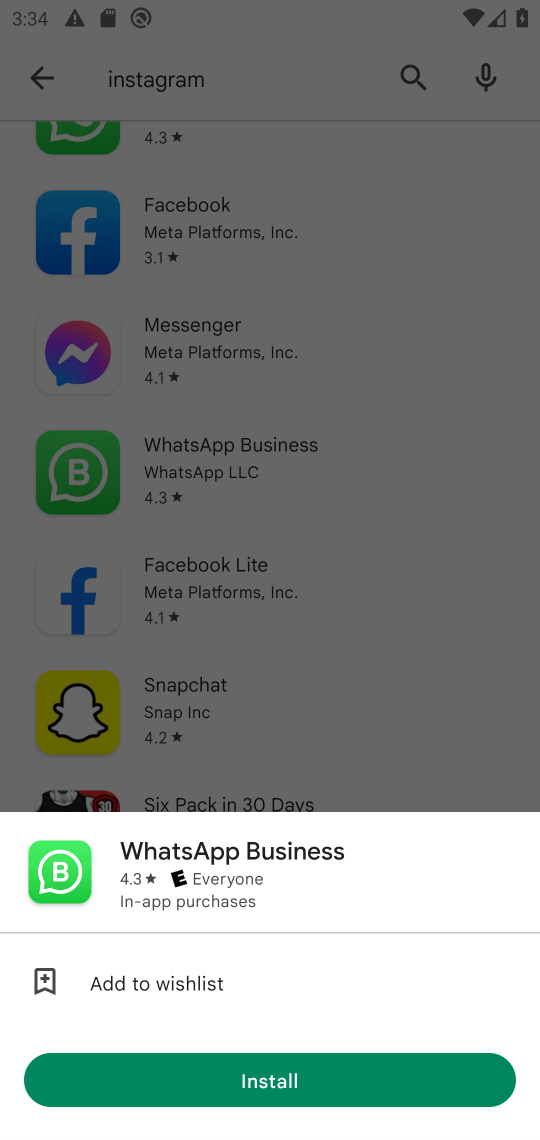
Step 54: drag from (366, 625) to (310, 612)
Your task to perform on an android device: open app "Instagram" Image 55: 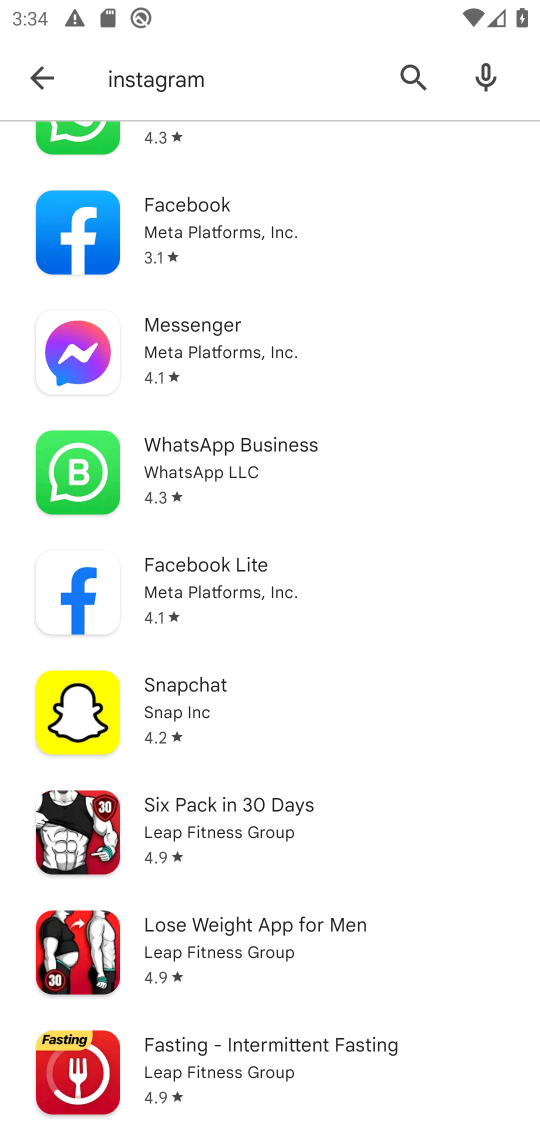
Step 55: drag from (293, 430) to (259, 750)
Your task to perform on an android device: open app "Instagram" Image 56: 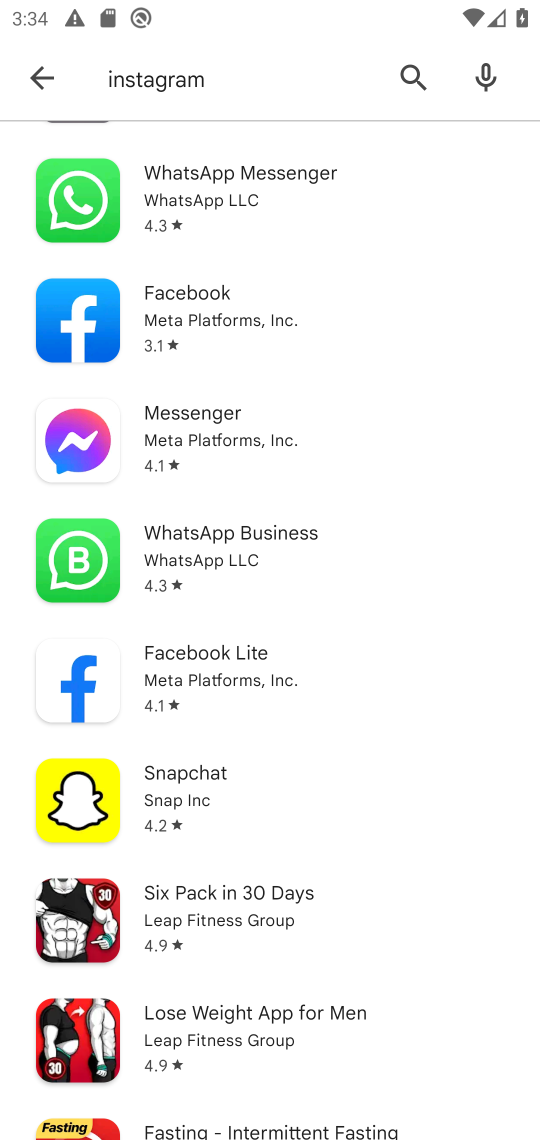
Step 56: drag from (245, 513) to (245, 635)
Your task to perform on an android device: open app "Instagram" Image 57: 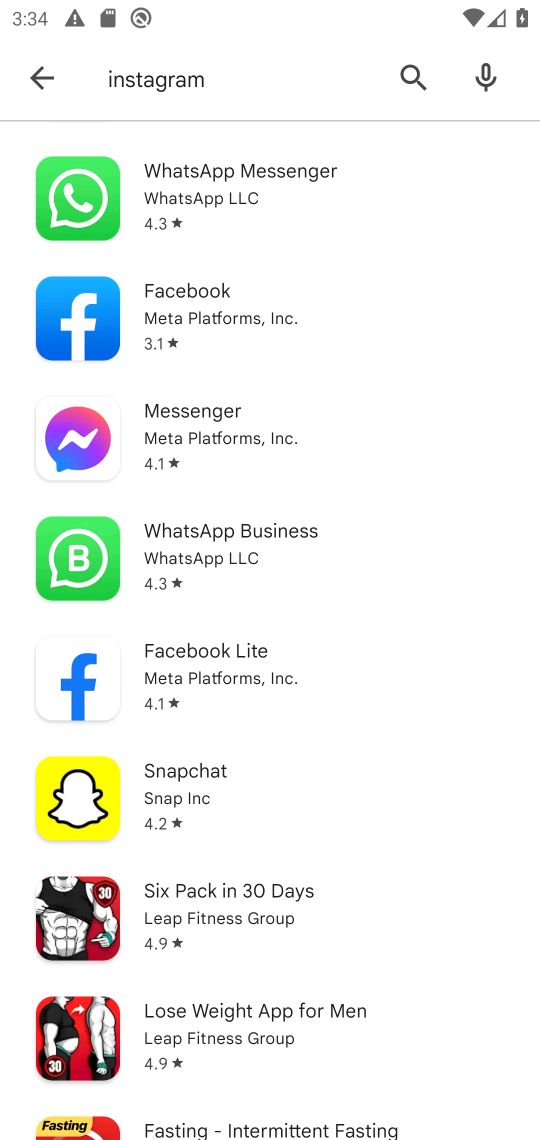
Step 57: drag from (244, 205) to (255, 516)
Your task to perform on an android device: open app "Instagram" Image 58: 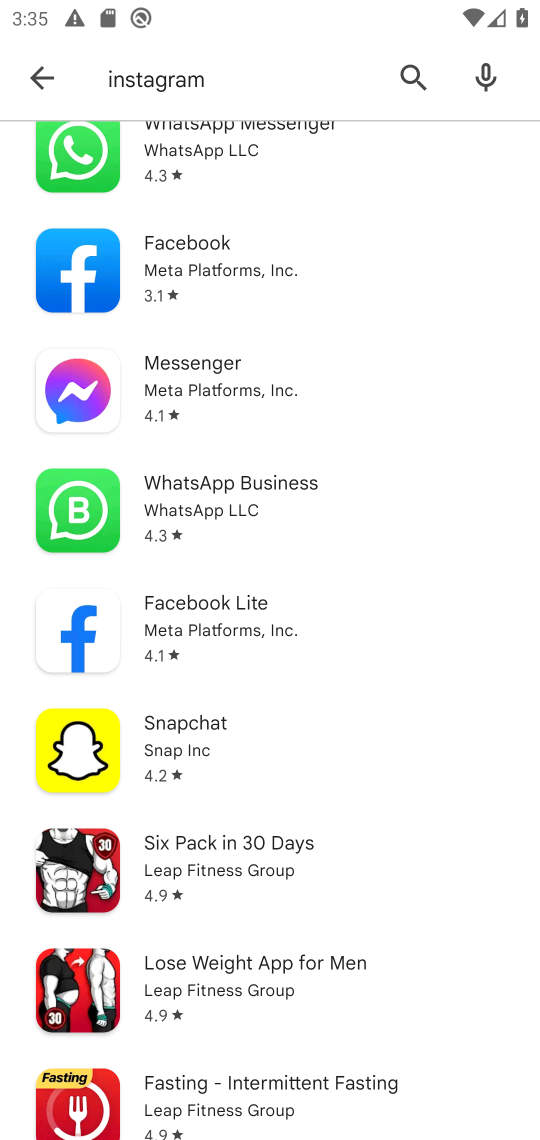
Step 58: drag from (215, 142) to (198, 459)
Your task to perform on an android device: open app "Instagram" Image 59: 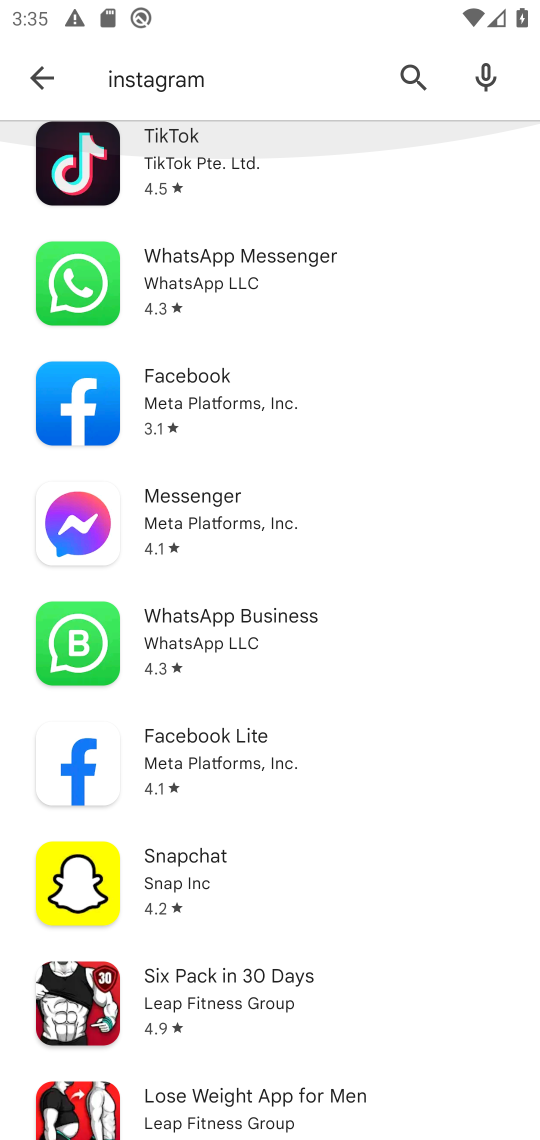
Step 59: click (222, 394)
Your task to perform on an android device: open app "Instagram" Image 60: 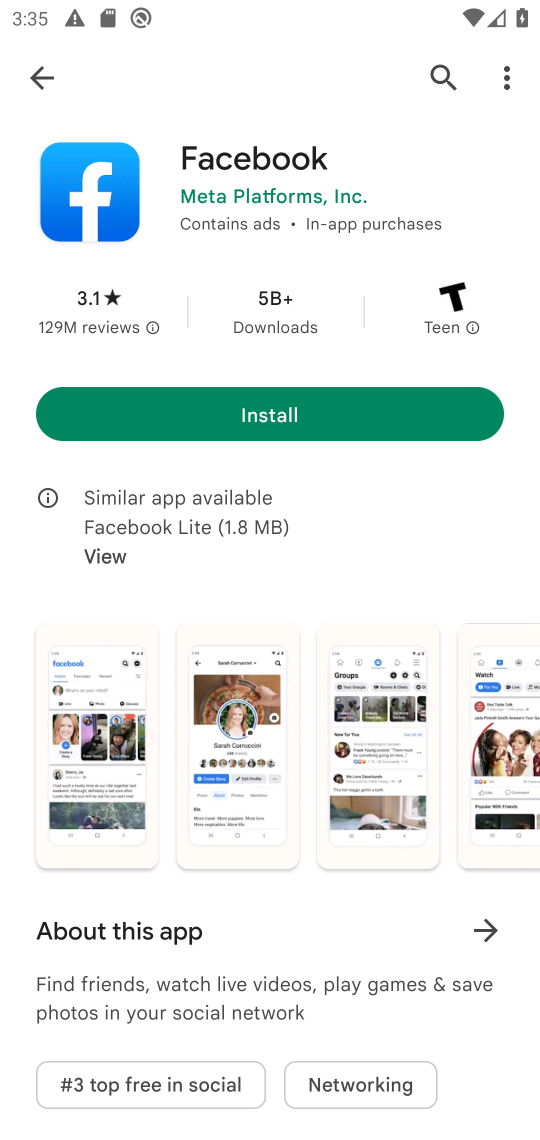
Step 60: task complete